Your task to perform on an android device: Empty the shopping cart on amazon.com. Add jbl flip 4 to the cart on amazon.com, then select checkout. Image 0: 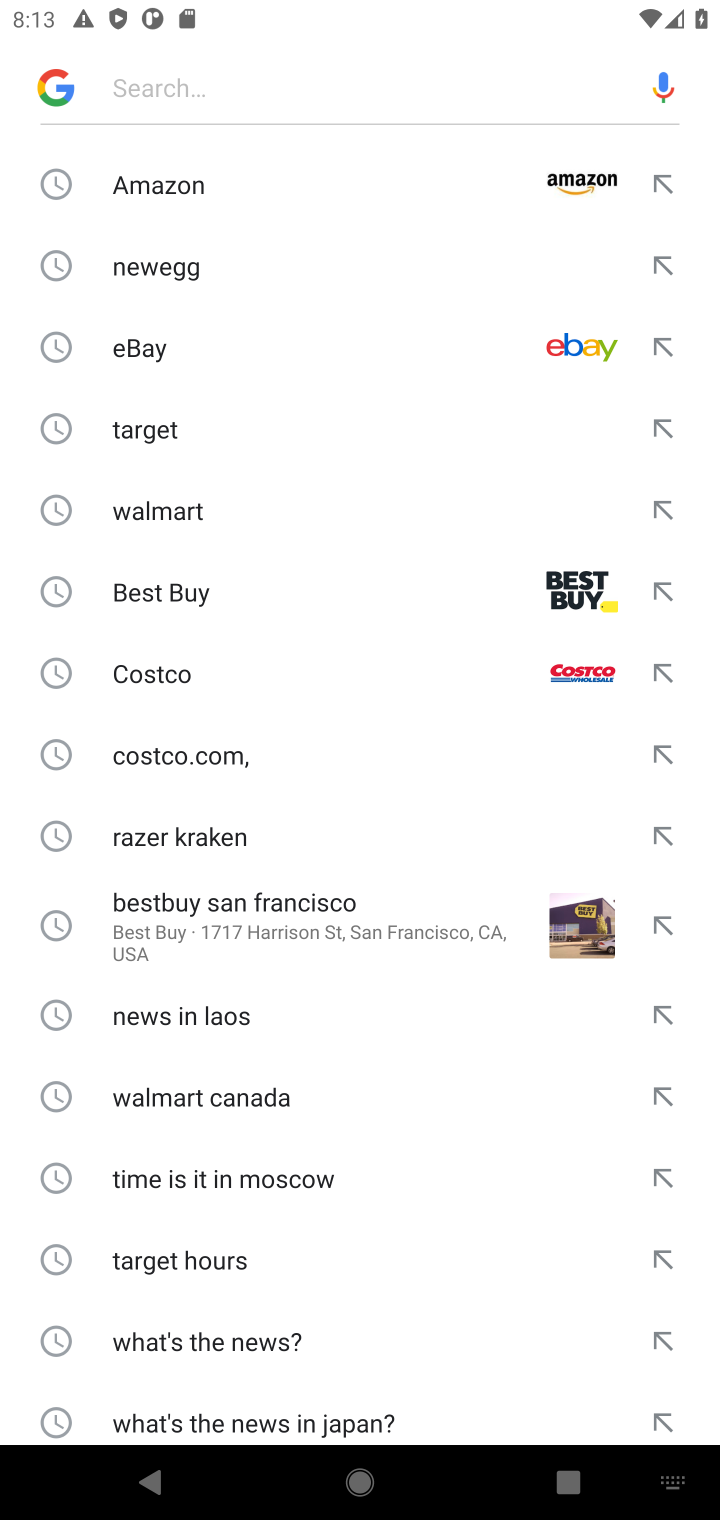
Step 0: press home button
Your task to perform on an android device: Empty the shopping cart on amazon.com. Add jbl flip 4 to the cart on amazon.com, then select checkout. Image 1: 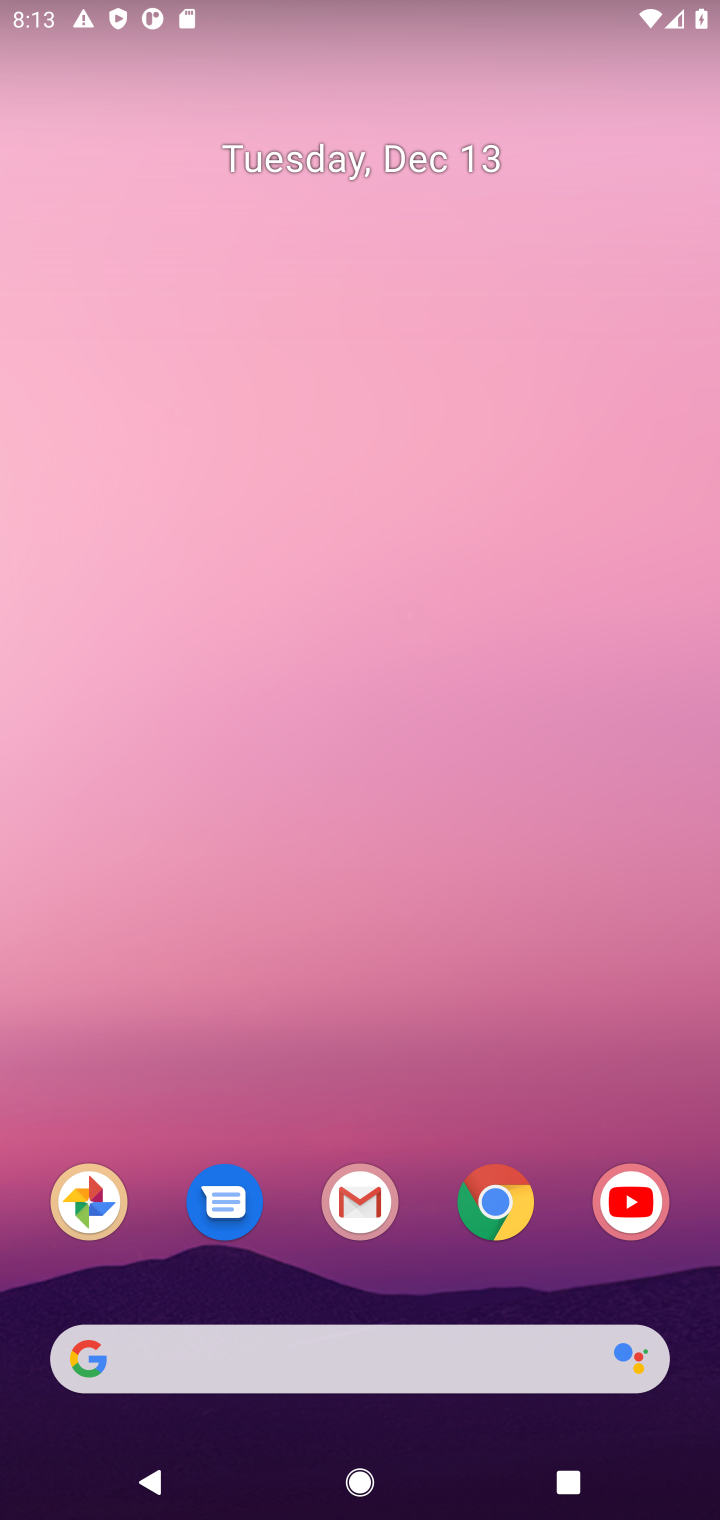
Step 1: click (523, 1202)
Your task to perform on an android device: Empty the shopping cart on amazon.com. Add jbl flip 4 to the cart on amazon.com, then select checkout. Image 2: 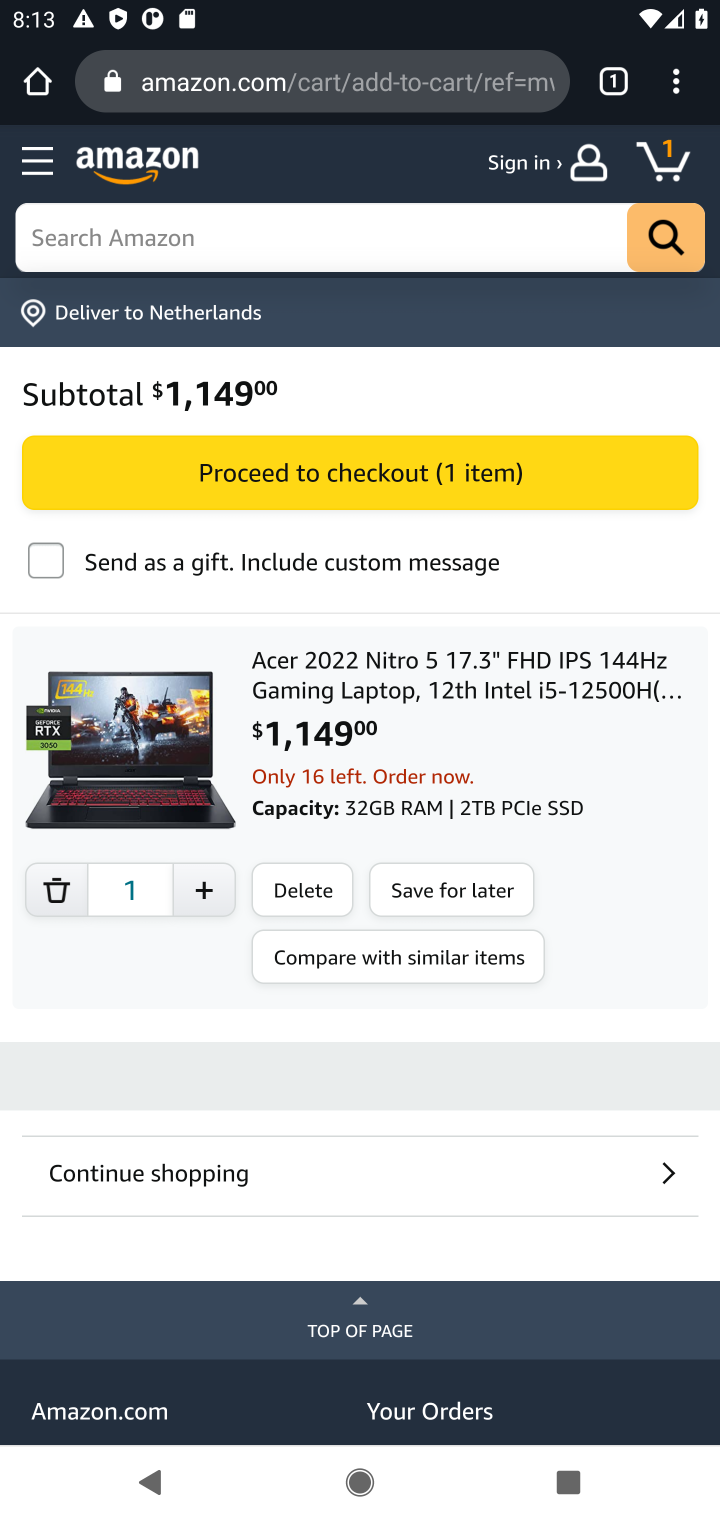
Step 2: click (666, 170)
Your task to perform on an android device: Empty the shopping cart on amazon.com. Add jbl flip 4 to the cart on amazon.com, then select checkout. Image 3: 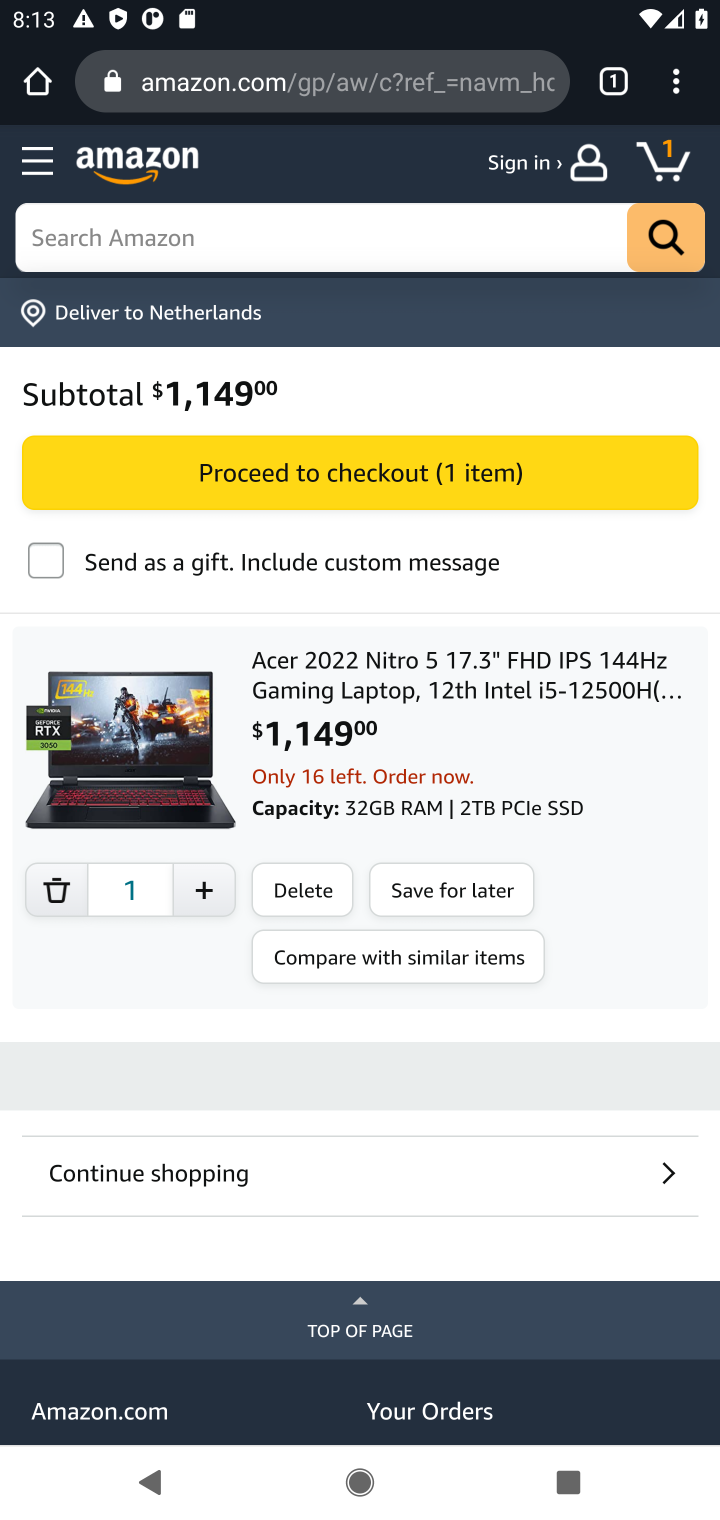
Step 3: click (305, 899)
Your task to perform on an android device: Empty the shopping cart on amazon.com. Add jbl flip 4 to the cart on amazon.com, then select checkout. Image 4: 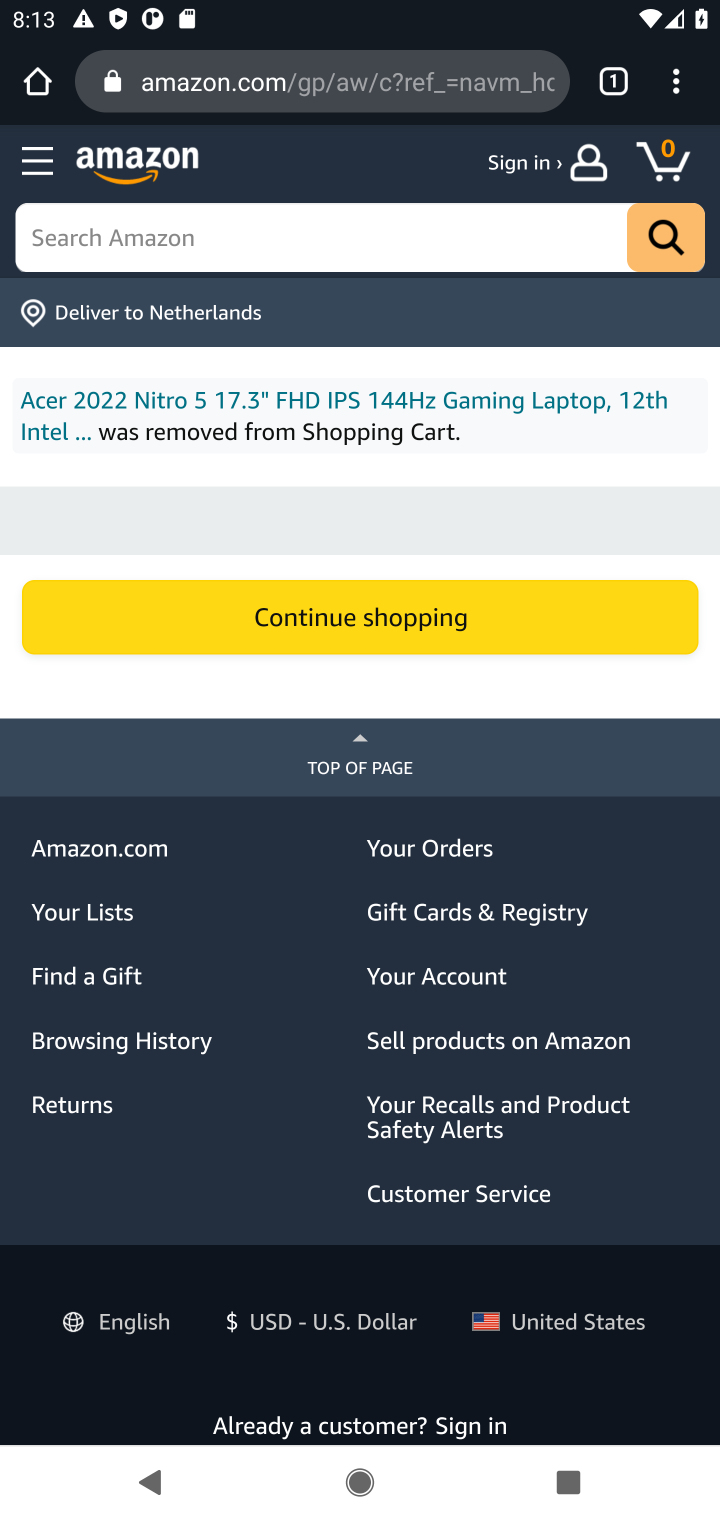
Step 4: type "jbl flip4"
Your task to perform on an android device: Empty the shopping cart on amazon.com. Add jbl flip 4 to the cart on amazon.com, then select checkout. Image 5: 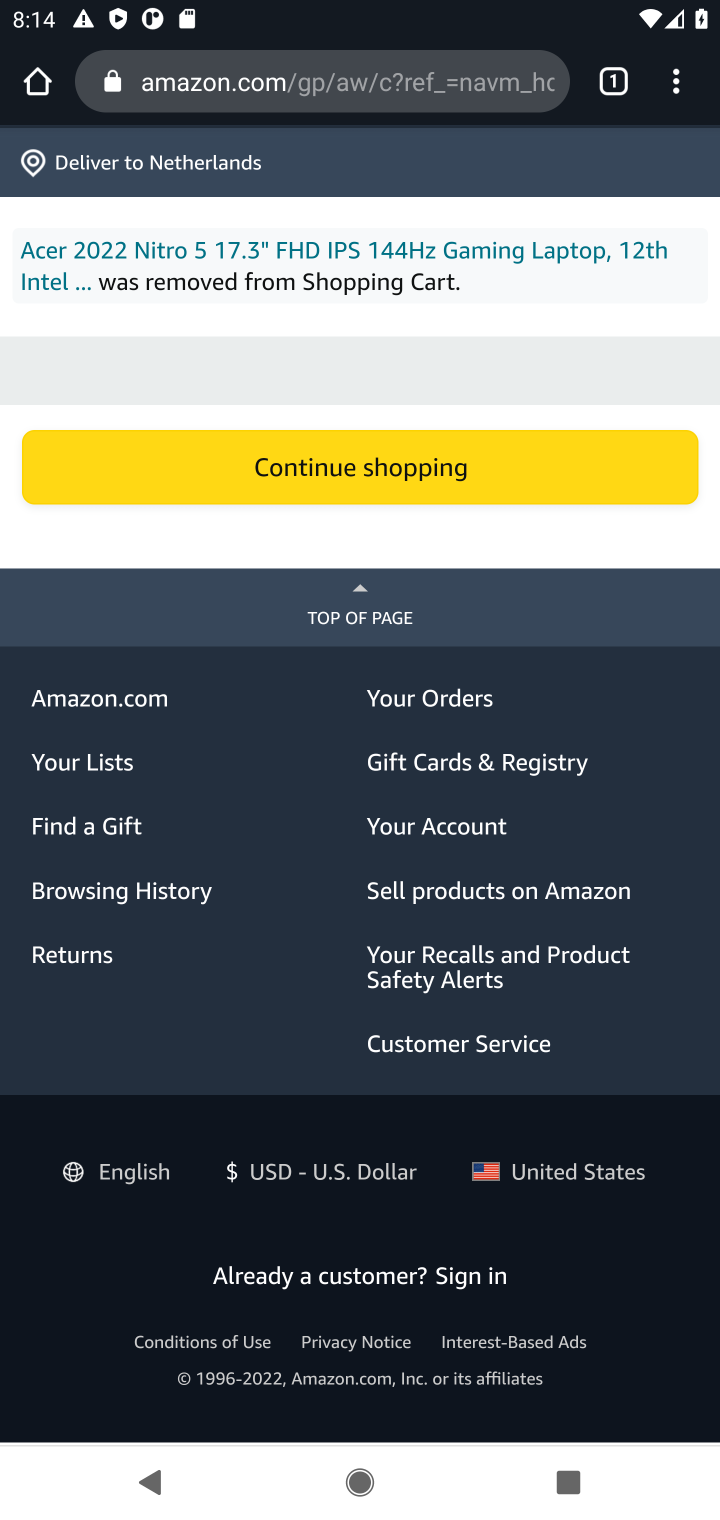
Step 5: drag from (302, 1021) to (468, 484)
Your task to perform on an android device: Empty the shopping cart on amazon.com. Add jbl flip 4 to the cart on amazon.com, then select checkout. Image 6: 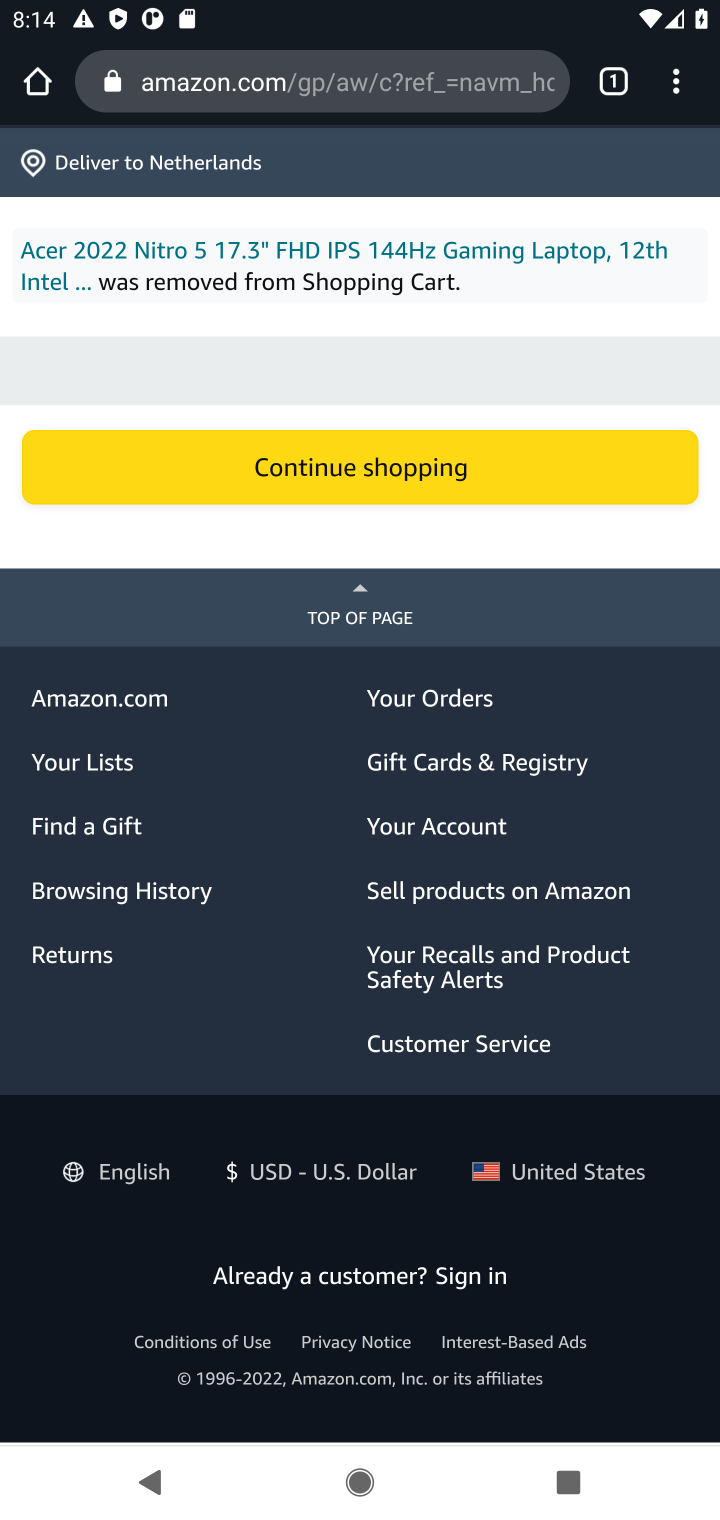
Step 6: drag from (656, 306) to (561, 1083)
Your task to perform on an android device: Empty the shopping cart on amazon.com. Add jbl flip 4 to the cart on amazon.com, then select checkout. Image 7: 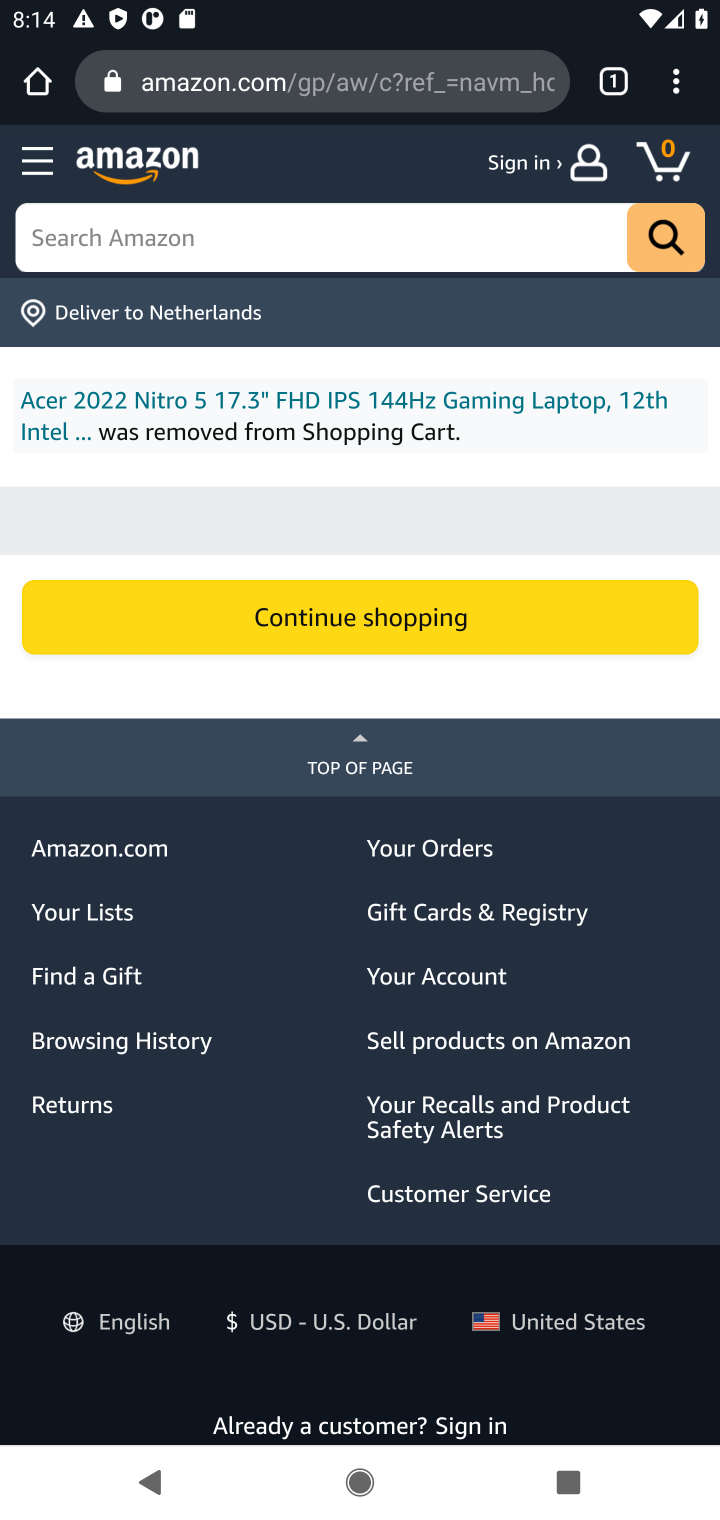
Step 7: click (467, 250)
Your task to perform on an android device: Empty the shopping cart on amazon.com. Add jbl flip 4 to the cart on amazon.com, then select checkout. Image 8: 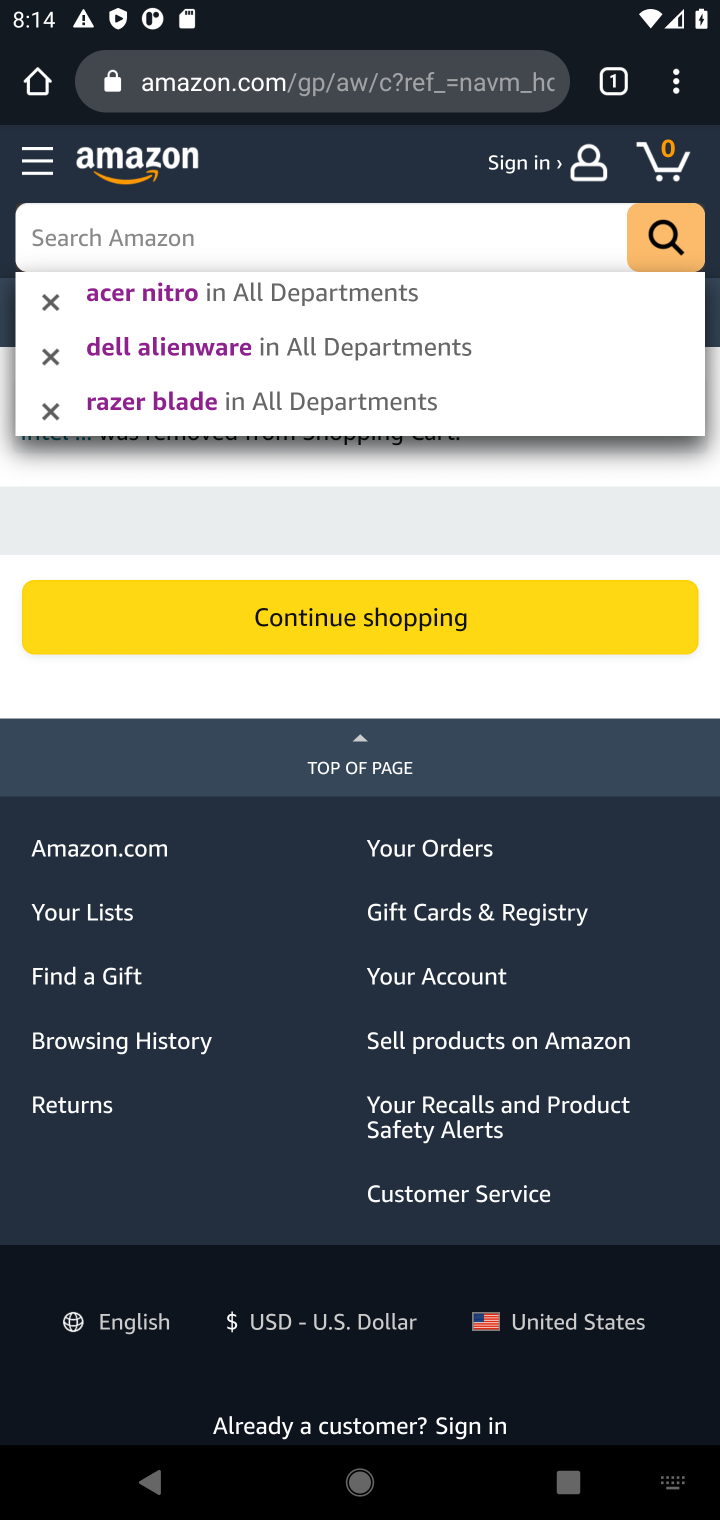
Step 8: type "jbl flip 4"
Your task to perform on an android device: Empty the shopping cart on amazon.com. Add jbl flip 4 to the cart on amazon.com, then select checkout. Image 9: 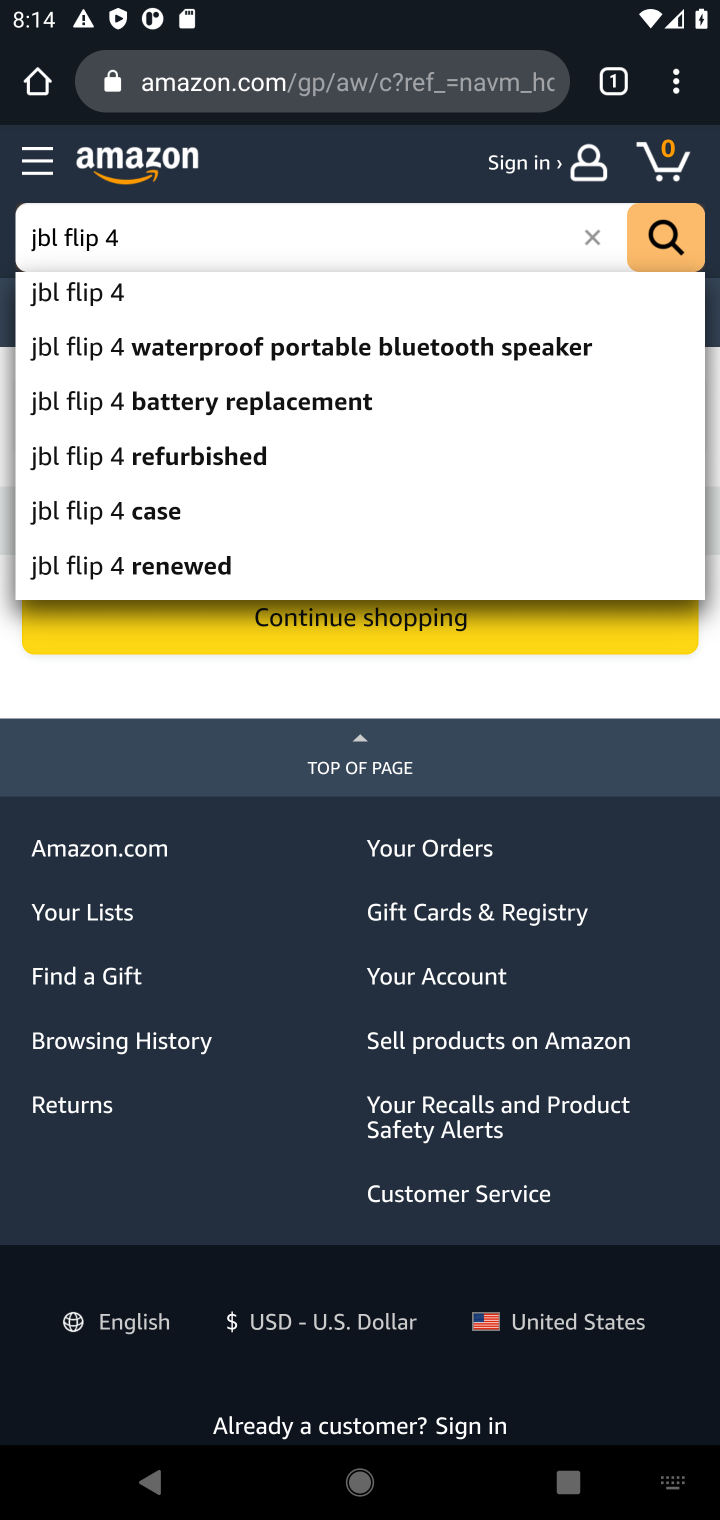
Step 9: click (687, 232)
Your task to perform on an android device: Empty the shopping cart on amazon.com. Add jbl flip 4 to the cart on amazon.com, then select checkout. Image 10: 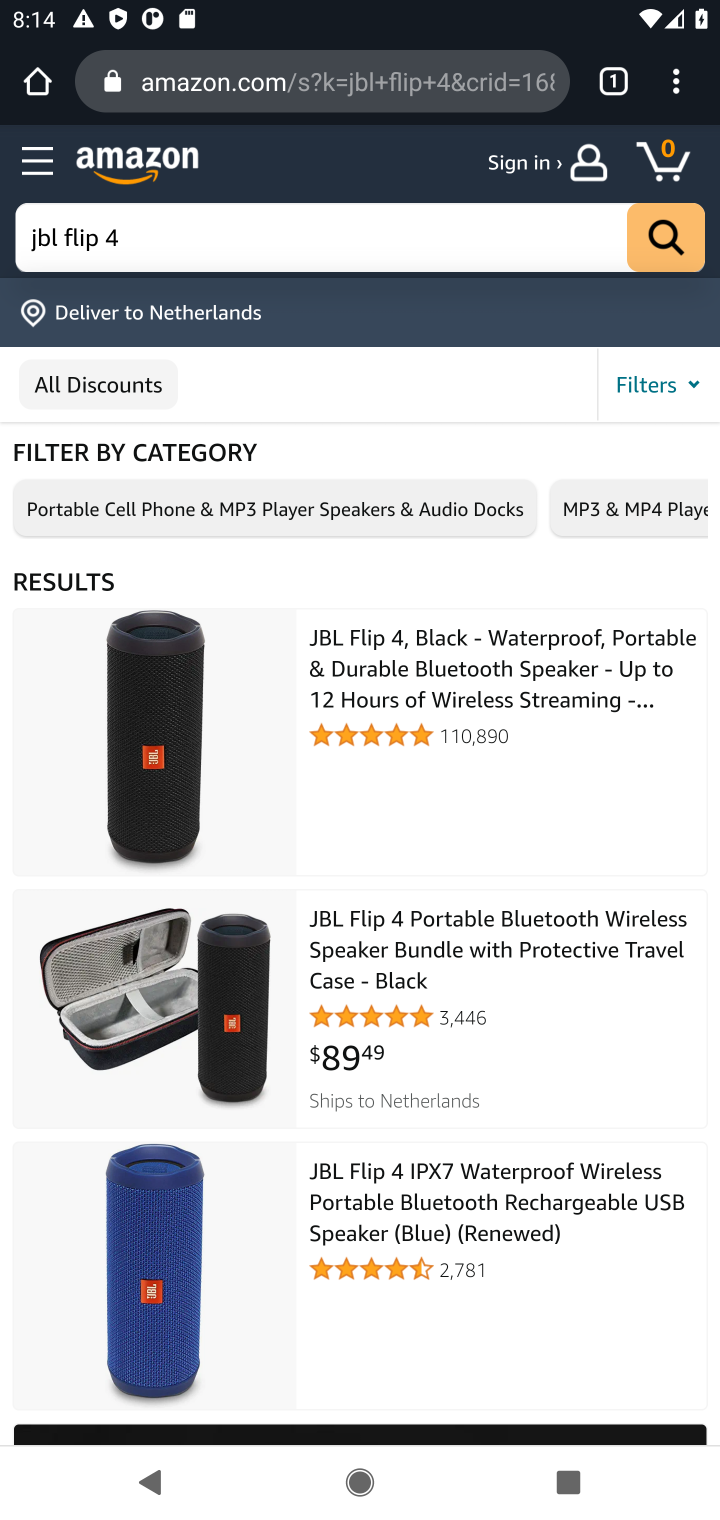
Step 10: click (342, 682)
Your task to perform on an android device: Empty the shopping cart on amazon.com. Add jbl flip 4 to the cart on amazon.com, then select checkout. Image 11: 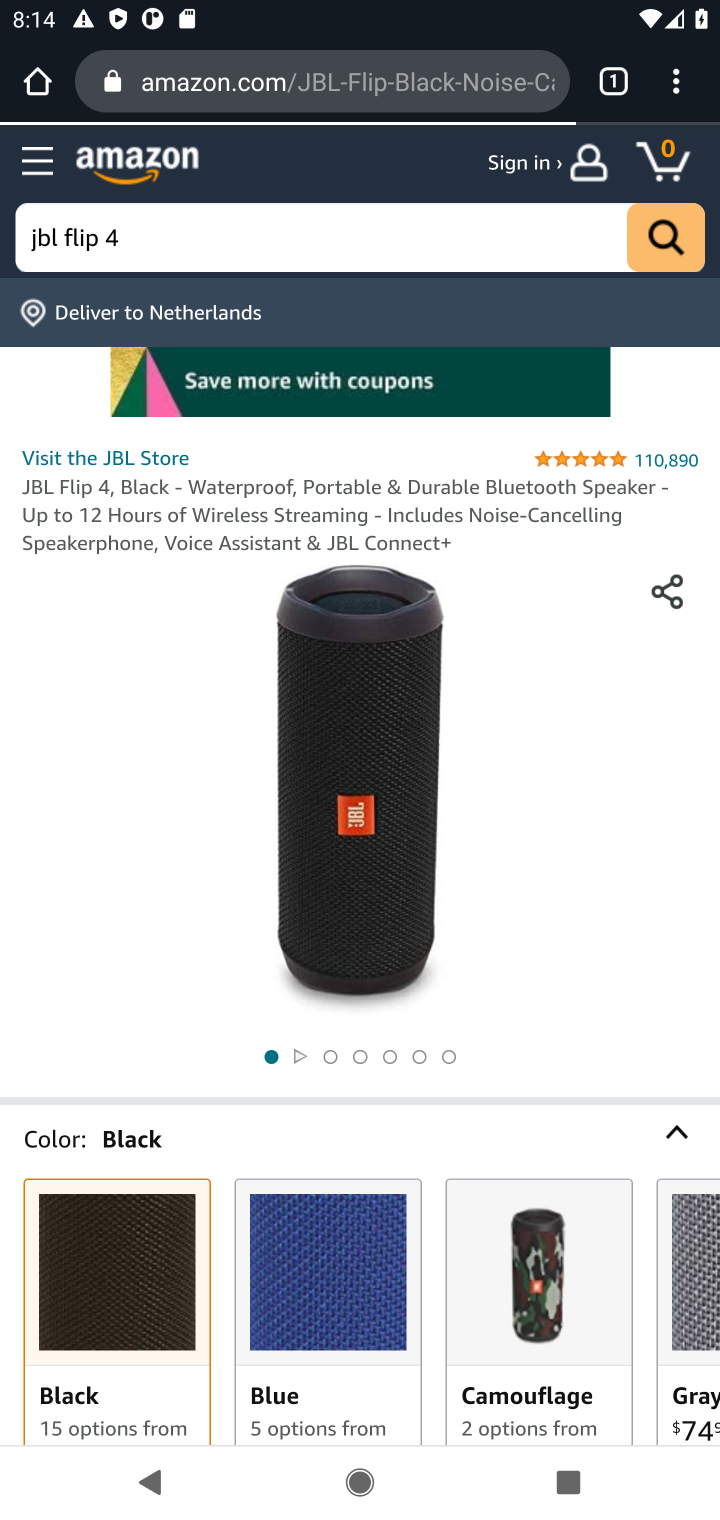
Step 11: drag from (590, 670) to (596, 454)
Your task to perform on an android device: Empty the shopping cart on amazon.com. Add jbl flip 4 to the cart on amazon.com, then select checkout. Image 12: 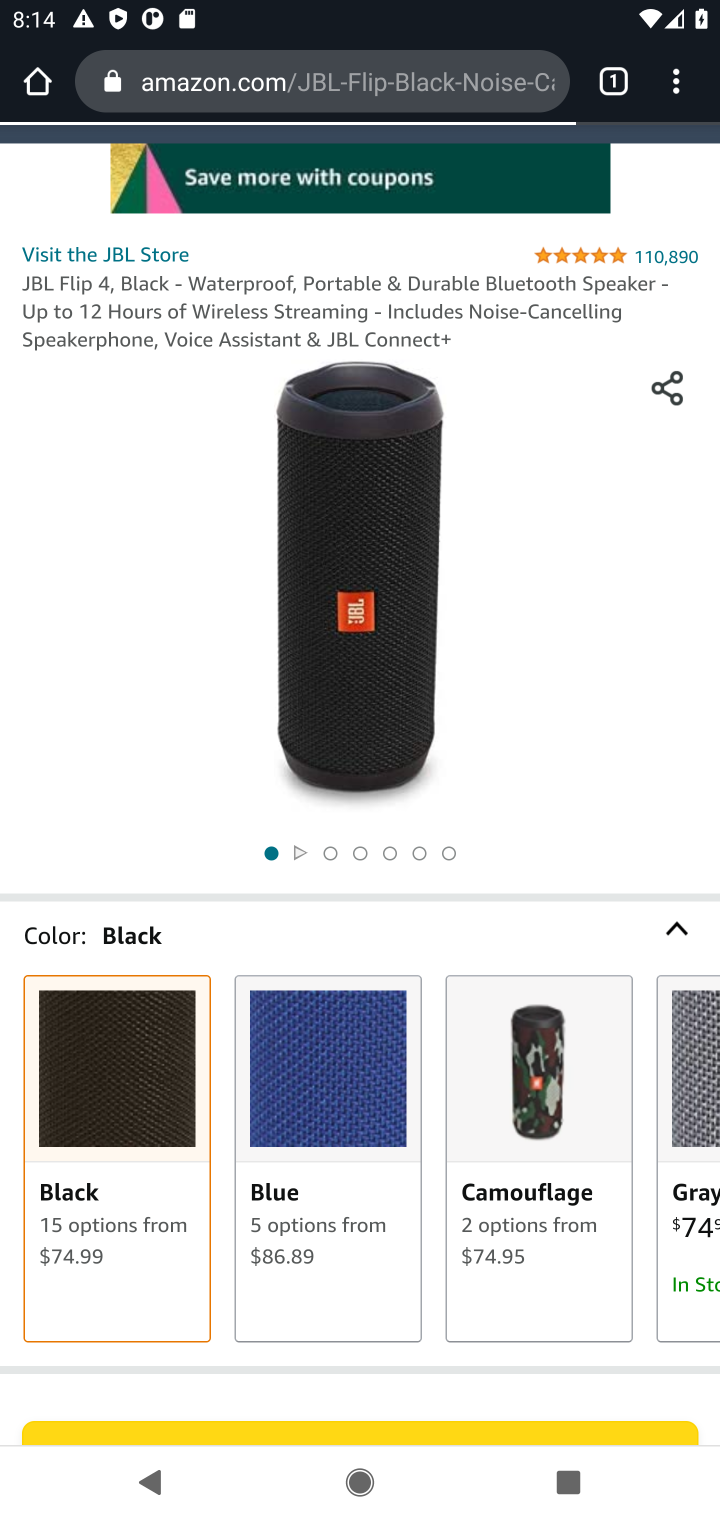
Step 12: drag from (595, 830) to (668, 351)
Your task to perform on an android device: Empty the shopping cart on amazon.com. Add jbl flip 4 to the cart on amazon.com, then select checkout. Image 13: 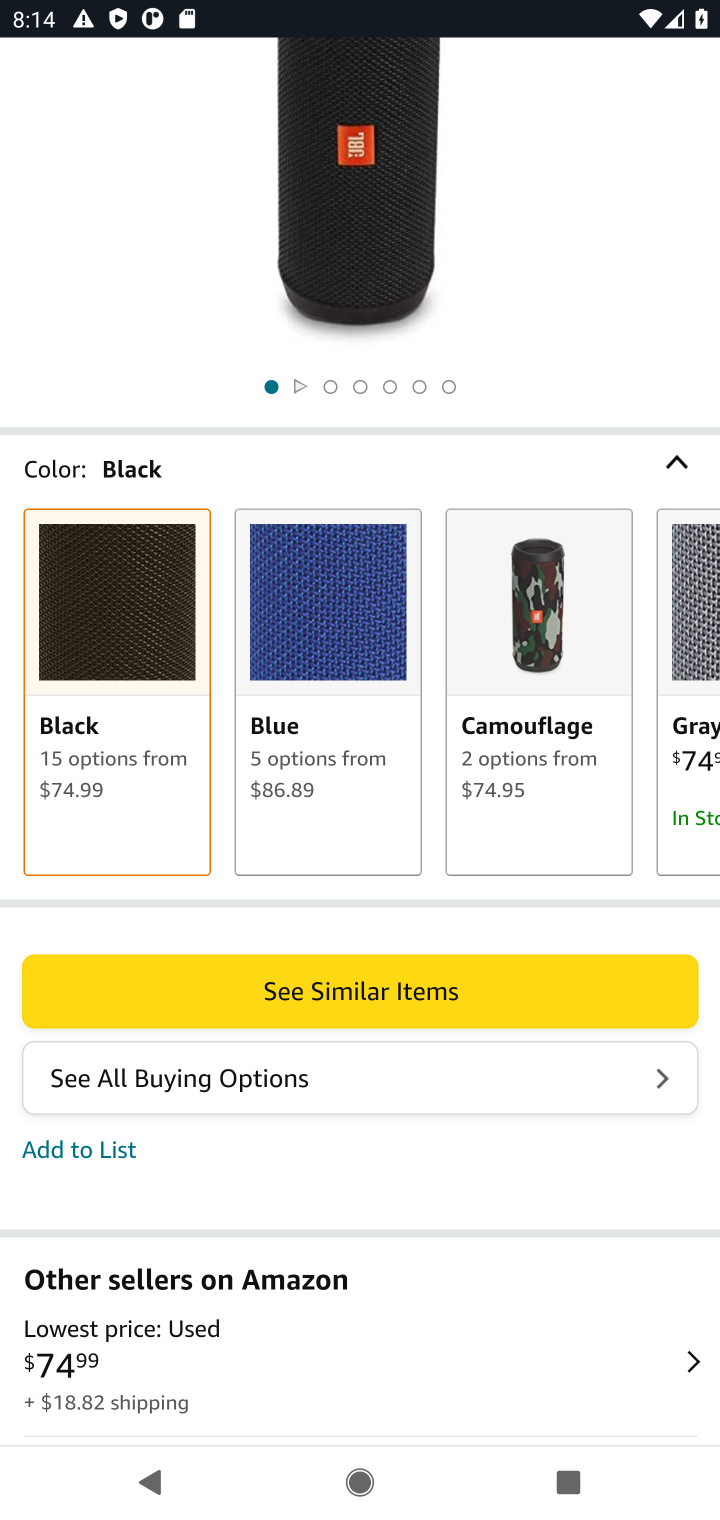
Step 13: drag from (497, 1191) to (615, 730)
Your task to perform on an android device: Empty the shopping cart on amazon.com. Add jbl flip 4 to the cart on amazon.com, then select checkout. Image 14: 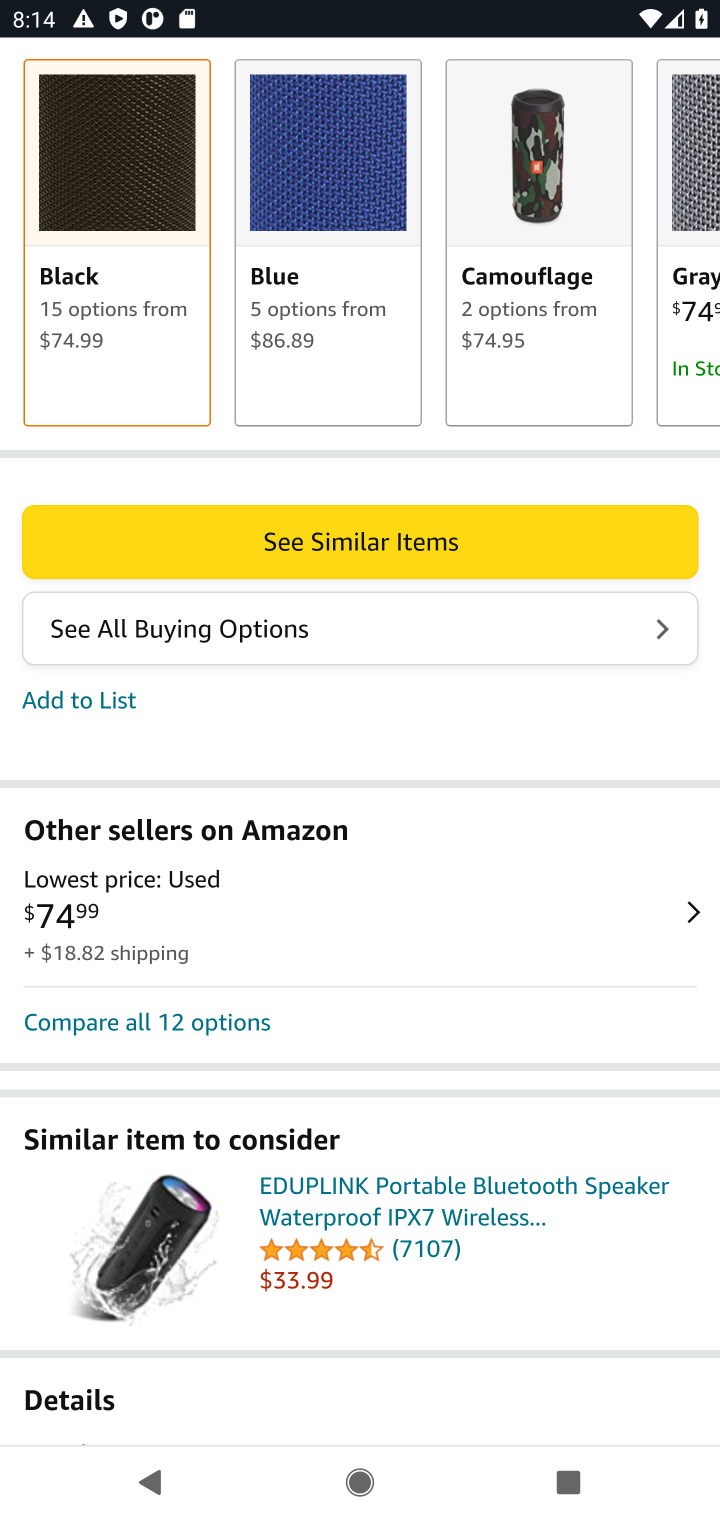
Step 14: drag from (572, 1281) to (552, 691)
Your task to perform on an android device: Empty the shopping cart on amazon.com. Add jbl flip 4 to the cart on amazon.com, then select checkout. Image 15: 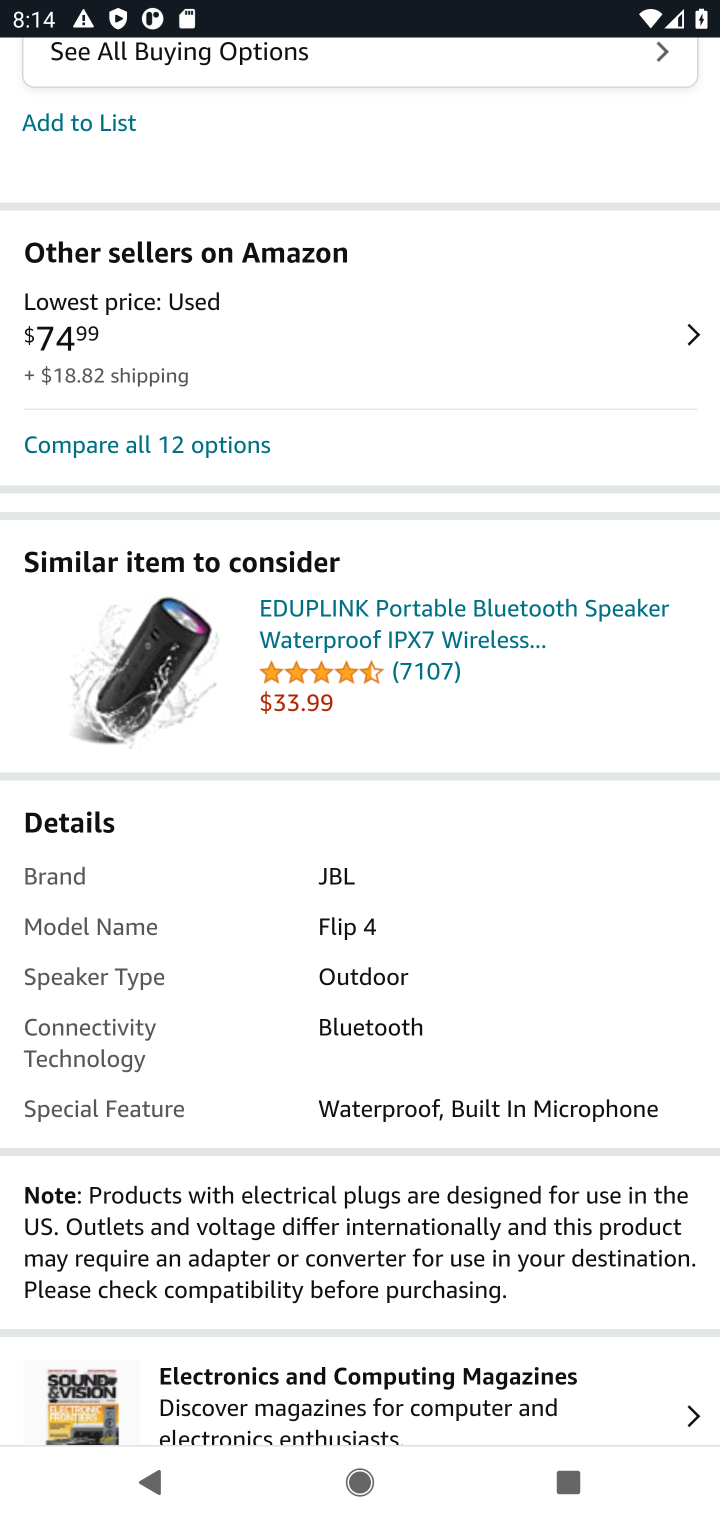
Step 15: drag from (488, 1226) to (533, 652)
Your task to perform on an android device: Empty the shopping cart on amazon.com. Add jbl flip 4 to the cart on amazon.com, then select checkout. Image 16: 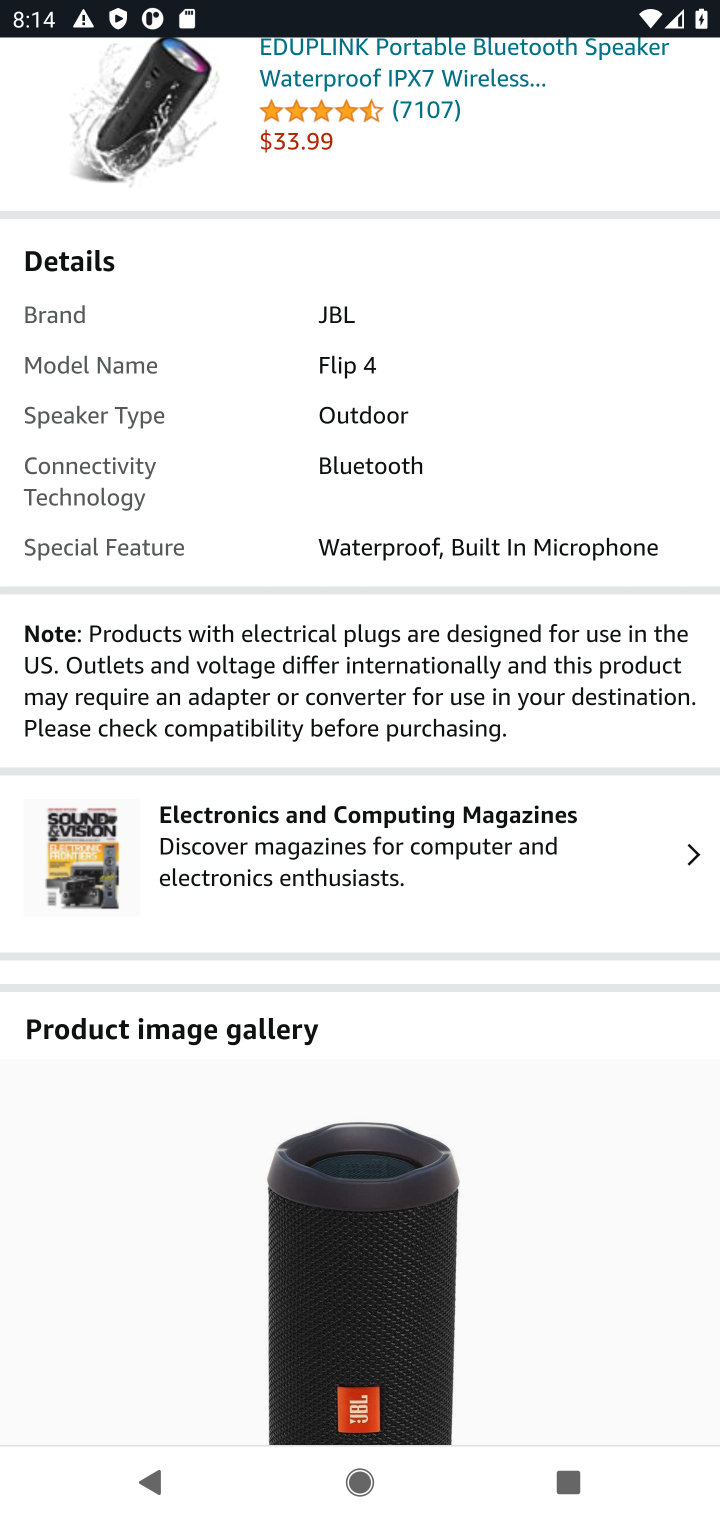
Step 16: drag from (544, 1220) to (564, 416)
Your task to perform on an android device: Empty the shopping cart on amazon.com. Add jbl flip 4 to the cart on amazon.com, then select checkout. Image 17: 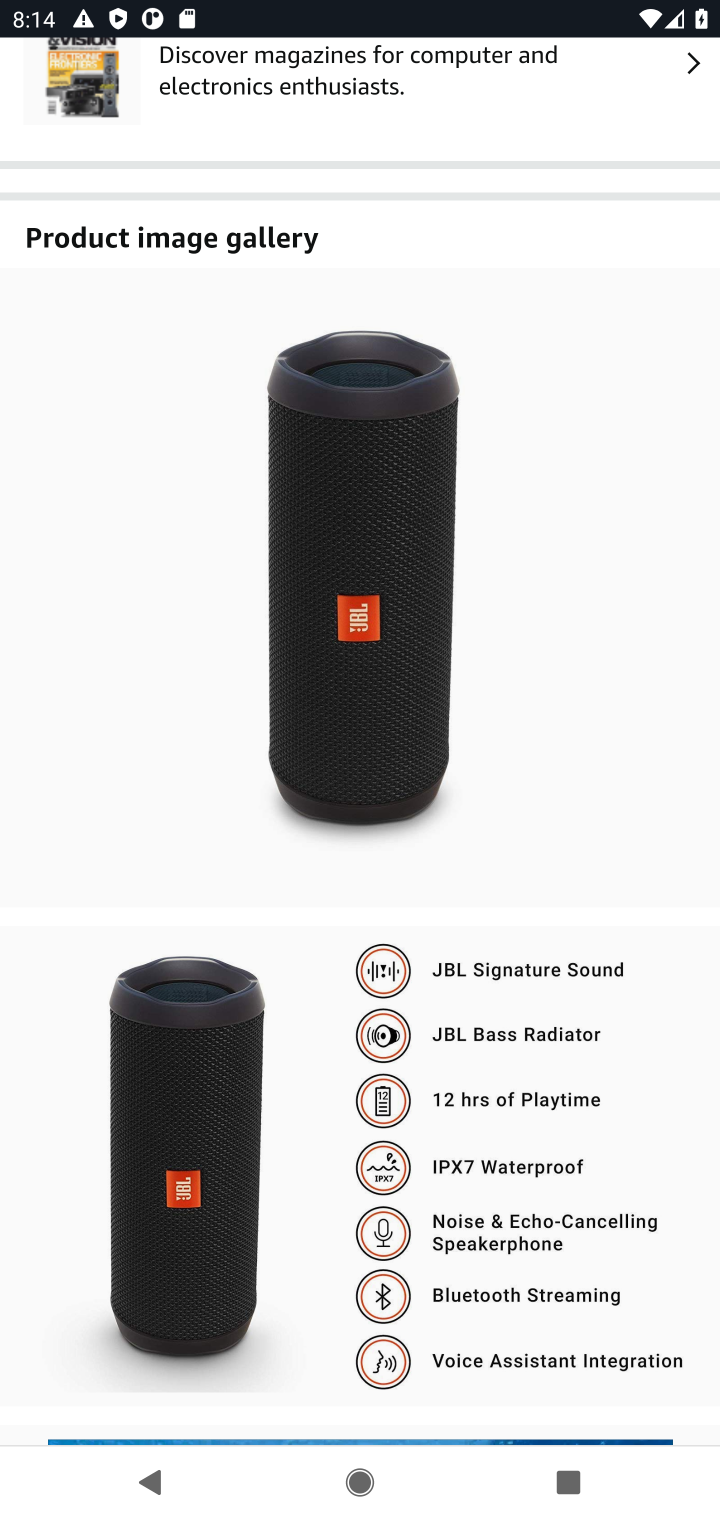
Step 17: drag from (506, 1197) to (657, 357)
Your task to perform on an android device: Empty the shopping cart on amazon.com. Add jbl flip 4 to the cart on amazon.com, then select checkout. Image 18: 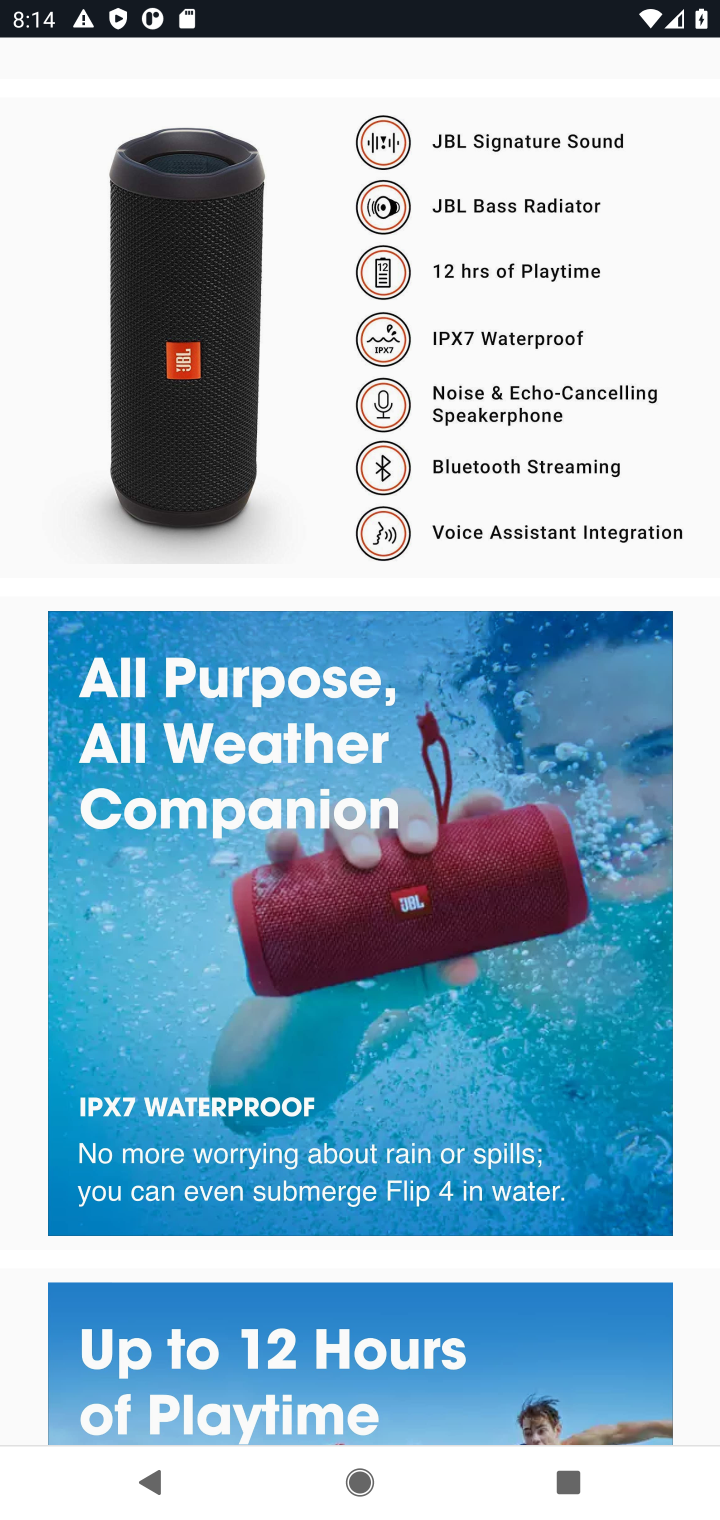
Step 18: drag from (474, 1251) to (567, 253)
Your task to perform on an android device: Empty the shopping cart on amazon.com. Add jbl flip 4 to the cart on amazon.com, then select checkout. Image 19: 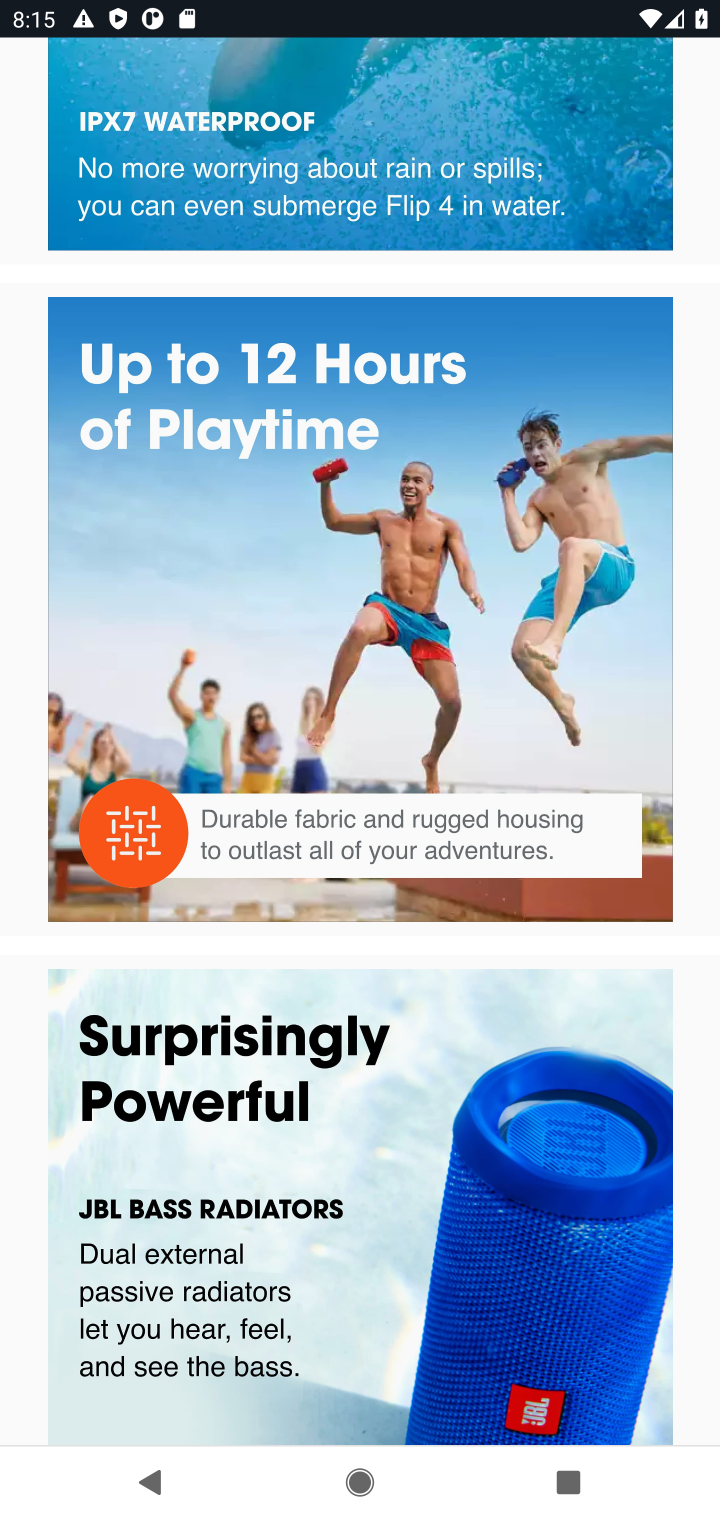
Step 19: drag from (576, 624) to (422, 1445)
Your task to perform on an android device: Empty the shopping cart on amazon.com. Add jbl flip 4 to the cart on amazon.com, then select checkout. Image 20: 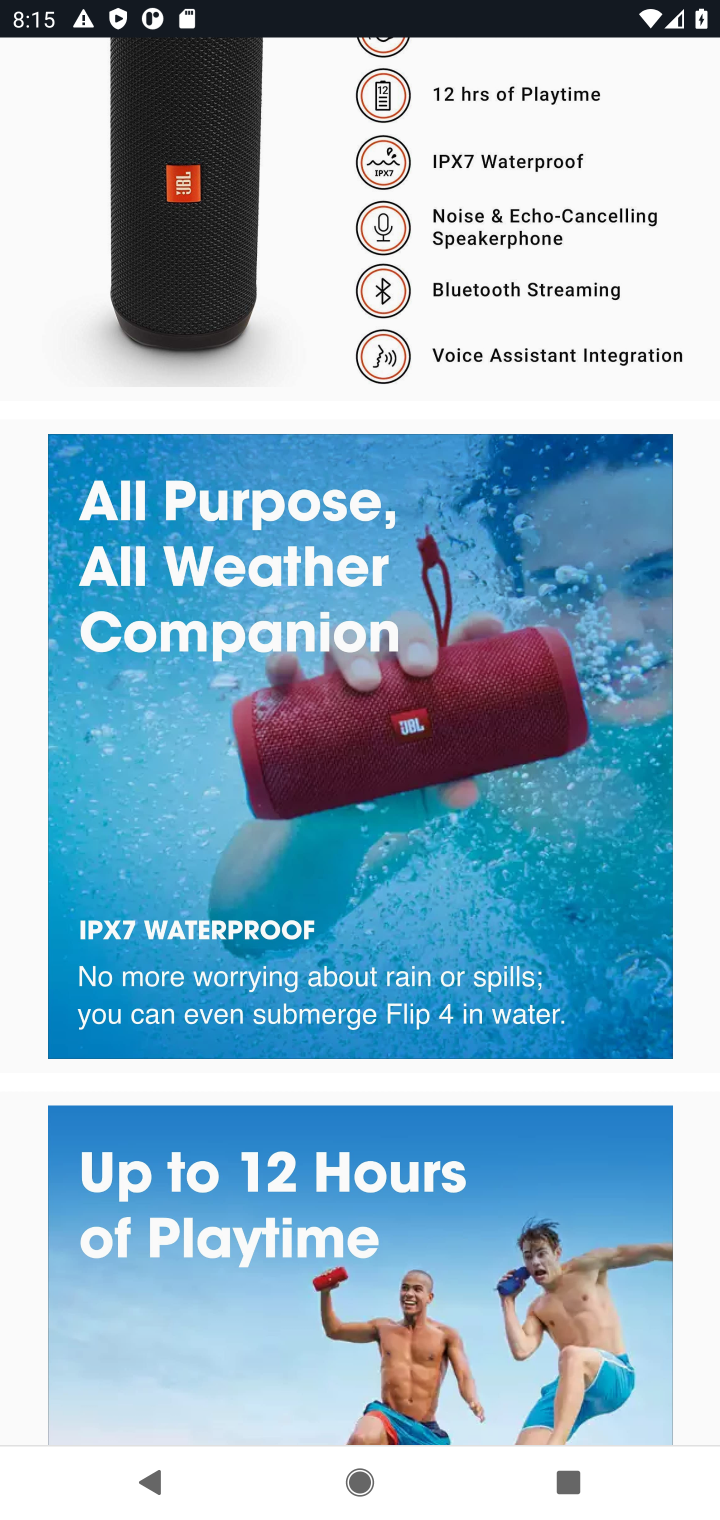
Step 20: drag from (500, 512) to (383, 1434)
Your task to perform on an android device: Empty the shopping cart on amazon.com. Add jbl flip 4 to the cart on amazon.com, then select checkout. Image 21: 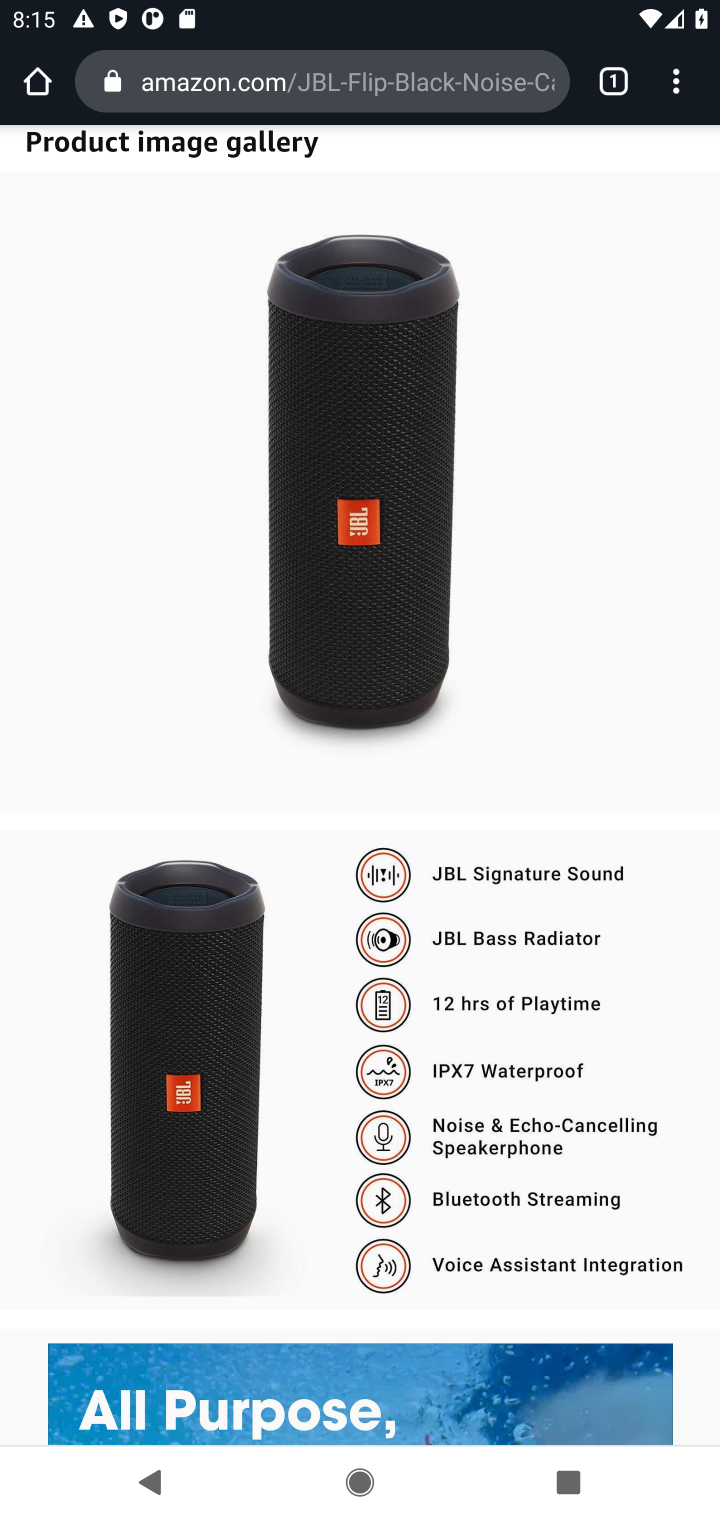
Step 21: drag from (593, 216) to (471, 1491)
Your task to perform on an android device: Empty the shopping cart on amazon.com. Add jbl flip 4 to the cart on amazon.com, then select checkout. Image 22: 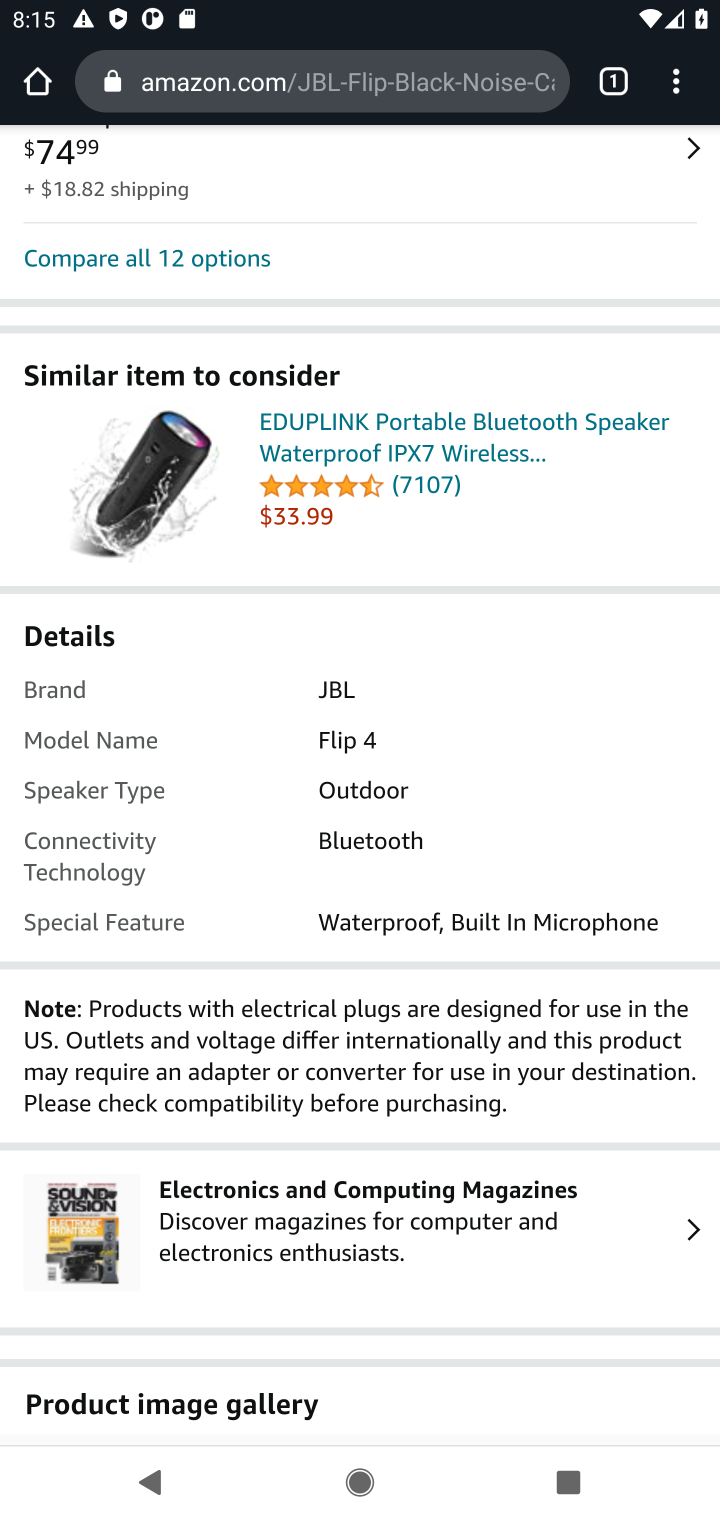
Step 22: drag from (620, 626) to (506, 1301)
Your task to perform on an android device: Empty the shopping cart on amazon.com. Add jbl flip 4 to the cart on amazon.com, then select checkout. Image 23: 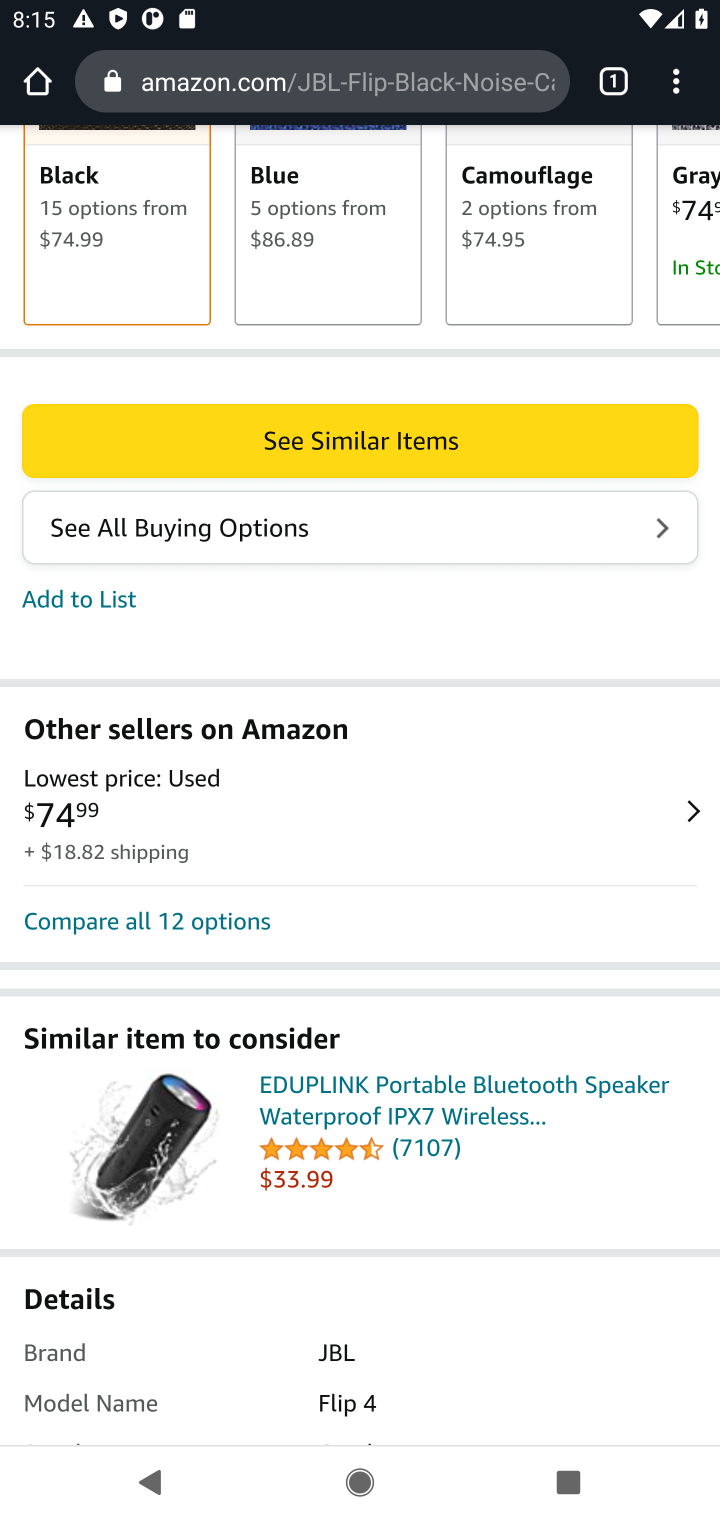
Step 23: drag from (565, 631) to (527, 1231)
Your task to perform on an android device: Empty the shopping cart on amazon.com. Add jbl flip 4 to the cart on amazon.com, then select checkout. Image 24: 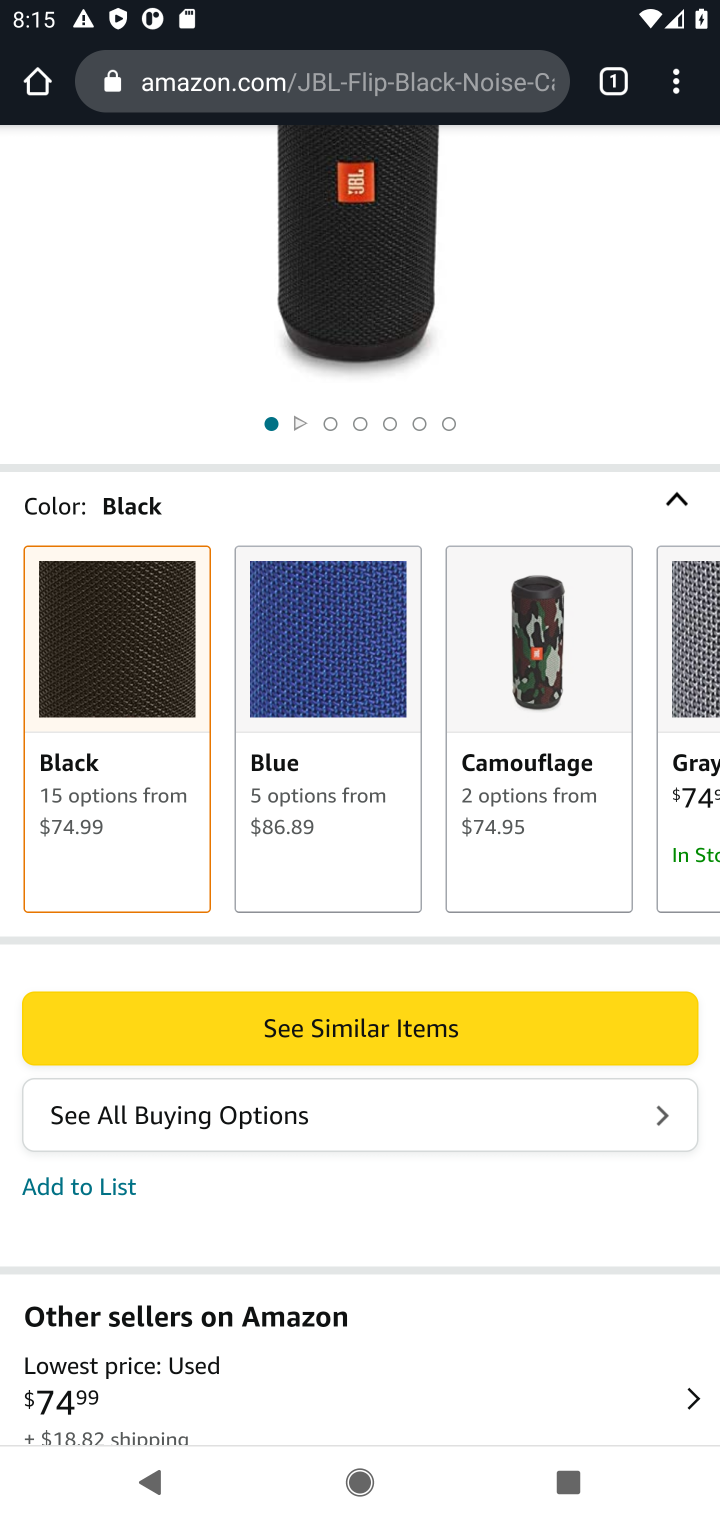
Step 24: drag from (568, 348) to (539, 1080)
Your task to perform on an android device: Empty the shopping cart on amazon.com. Add jbl flip 4 to the cart on amazon.com, then select checkout. Image 25: 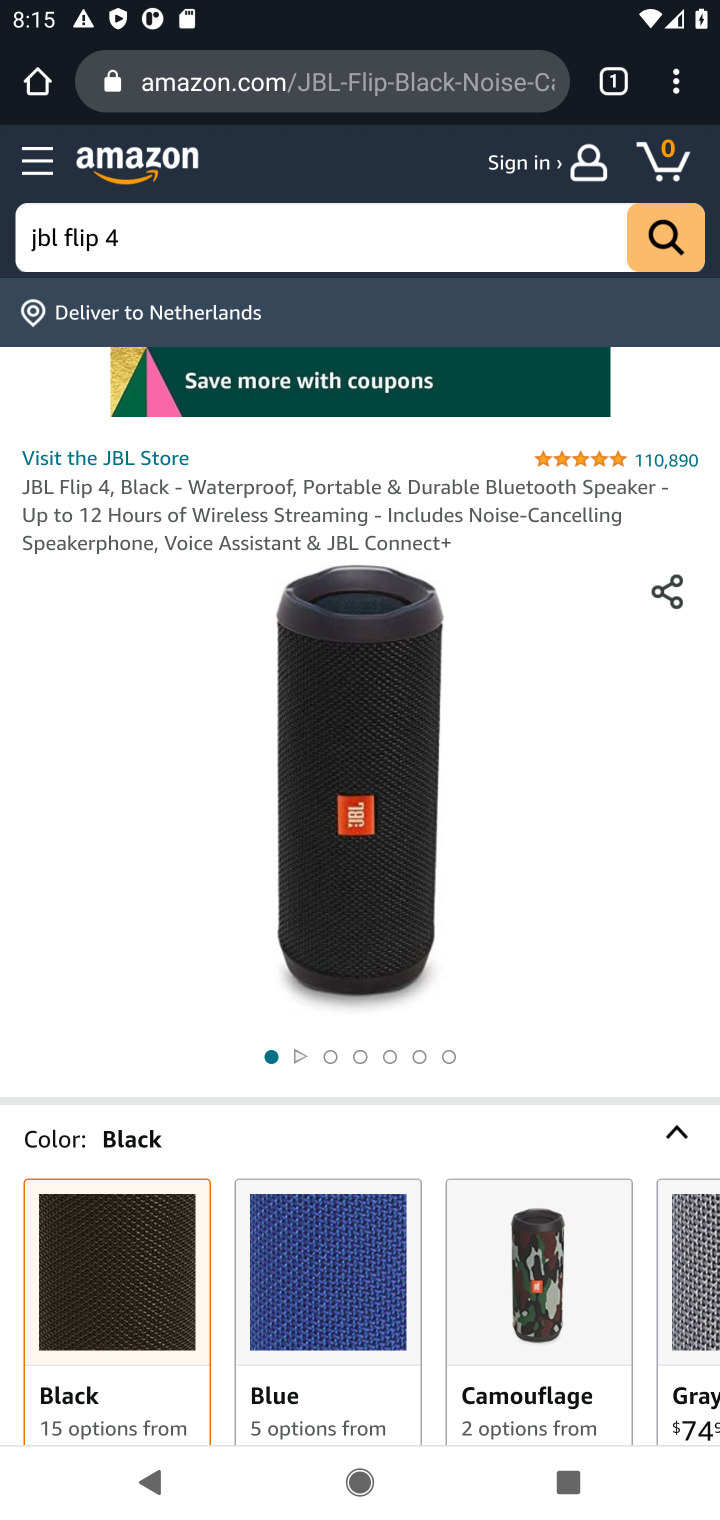
Step 25: press back button
Your task to perform on an android device: Empty the shopping cart on amazon.com. Add jbl flip 4 to the cart on amazon.com, then select checkout. Image 26: 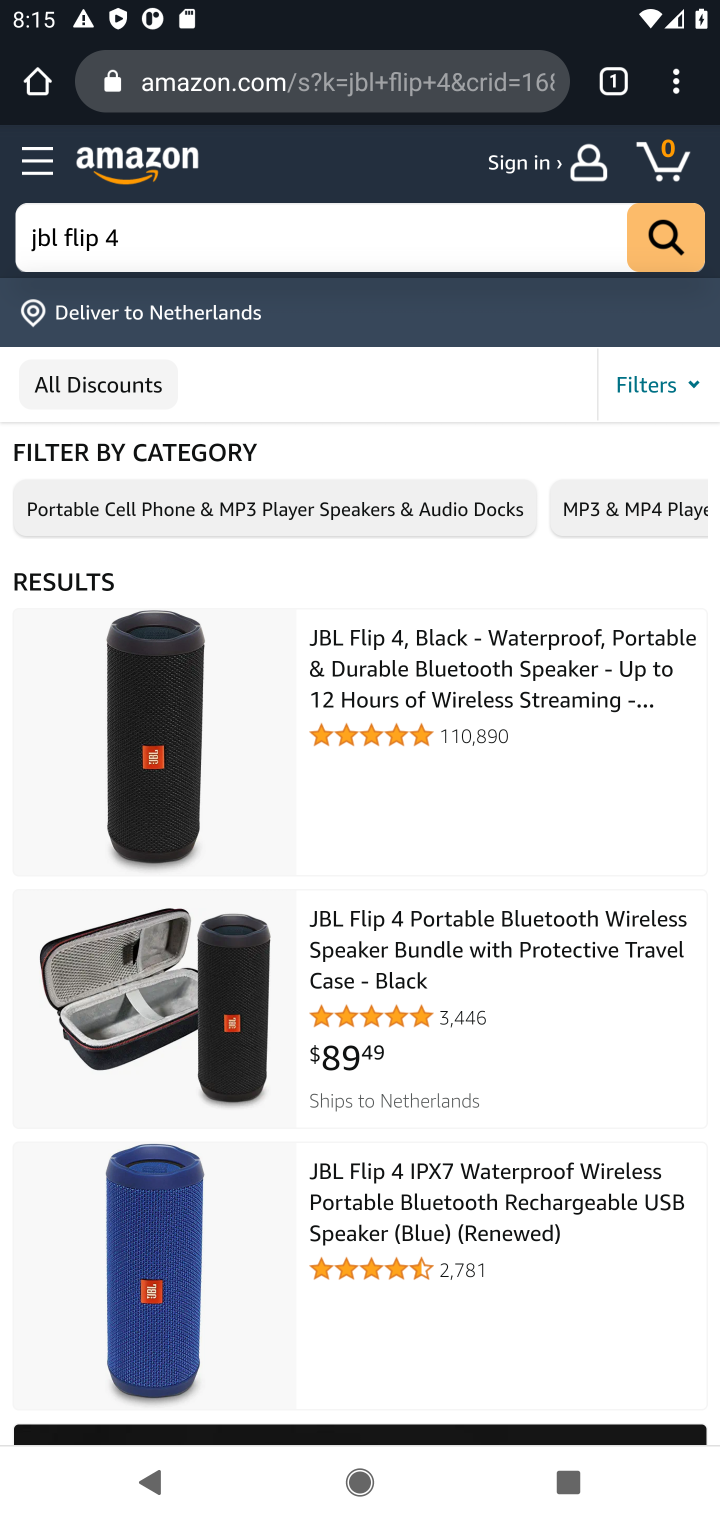
Step 26: click (415, 970)
Your task to perform on an android device: Empty the shopping cart on amazon.com. Add jbl flip 4 to the cart on amazon.com, then select checkout. Image 27: 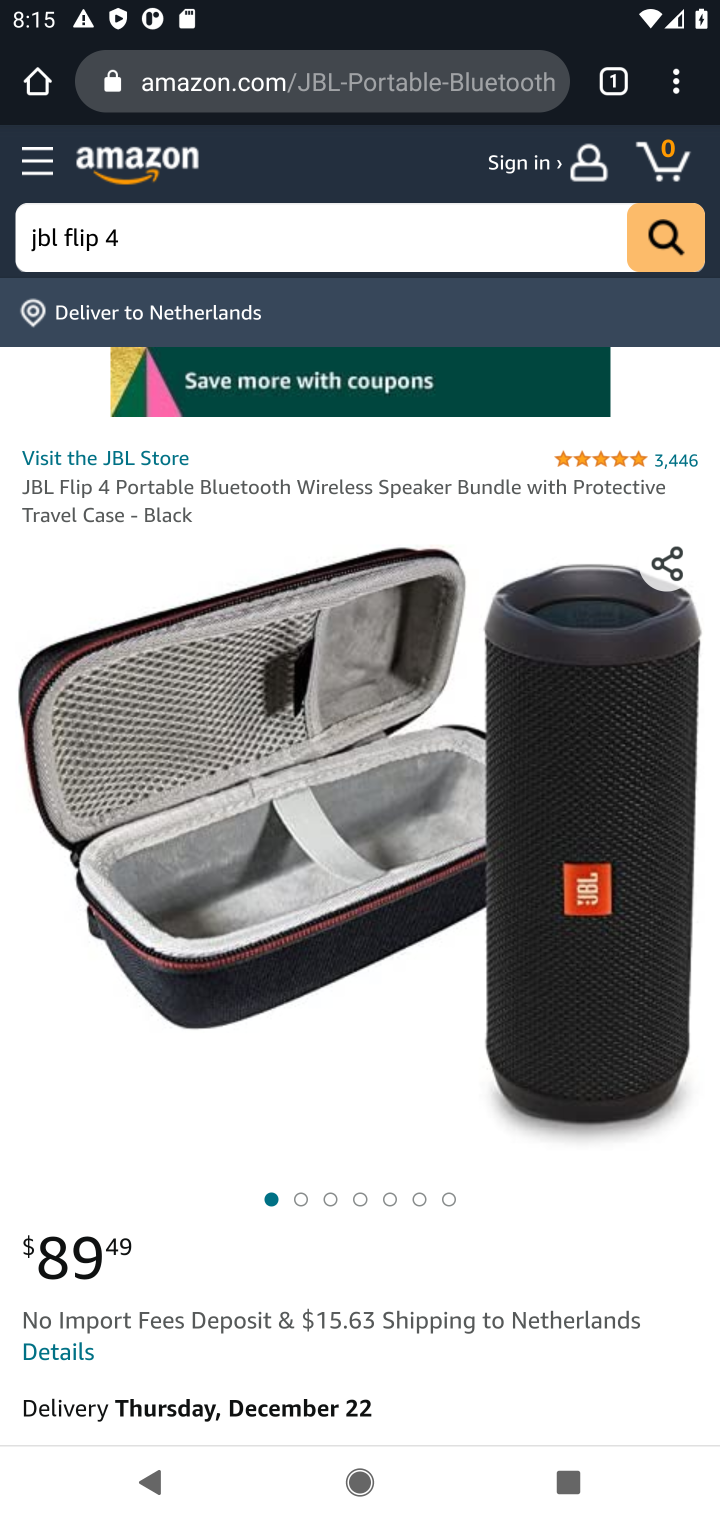
Step 27: drag from (571, 1029) to (579, 749)
Your task to perform on an android device: Empty the shopping cart on amazon.com. Add jbl flip 4 to the cart on amazon.com, then select checkout. Image 28: 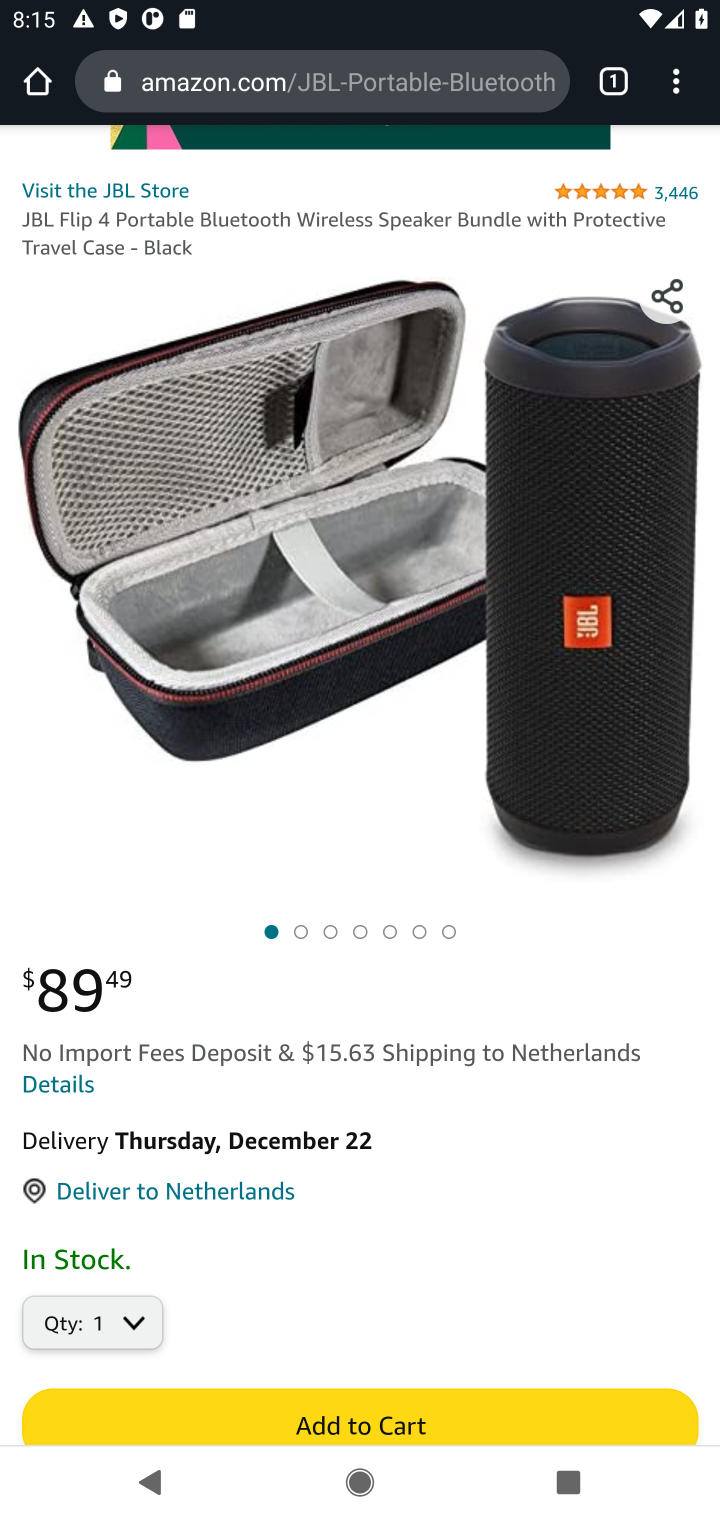
Step 28: drag from (544, 1064) to (550, 839)
Your task to perform on an android device: Empty the shopping cart on amazon.com. Add jbl flip 4 to the cart on amazon.com, then select checkout. Image 29: 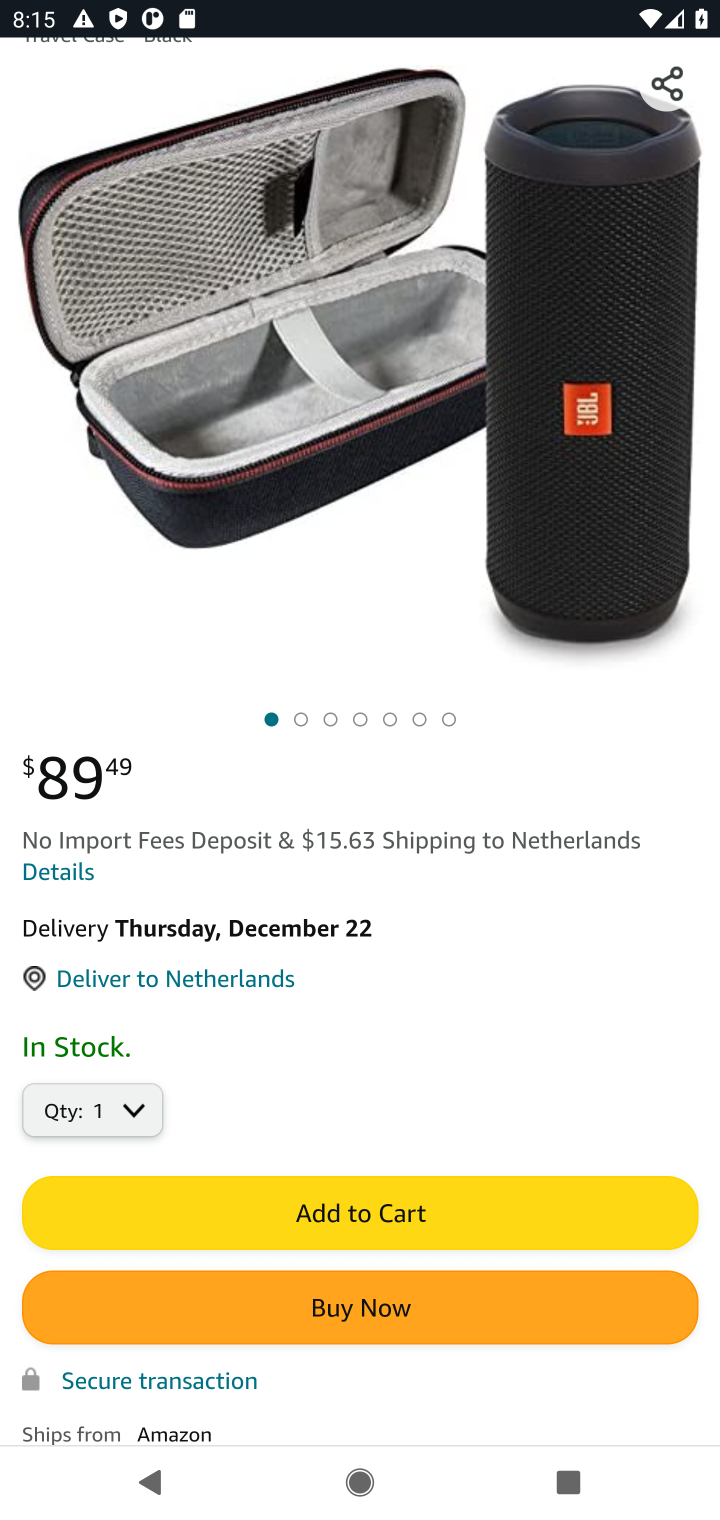
Step 29: click (499, 1195)
Your task to perform on an android device: Empty the shopping cart on amazon.com. Add jbl flip 4 to the cart on amazon.com, then select checkout. Image 30: 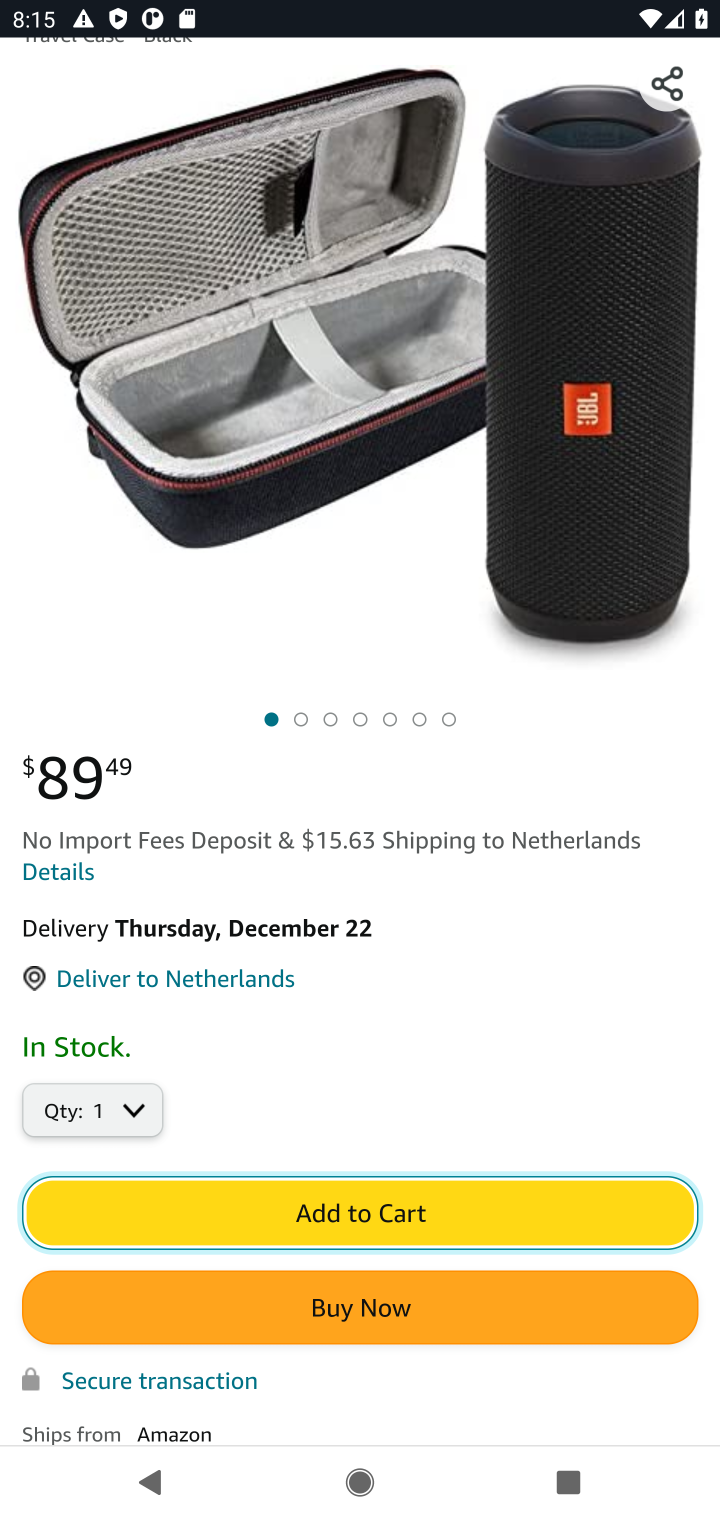
Step 30: click (577, 1217)
Your task to perform on an android device: Empty the shopping cart on amazon.com. Add jbl flip 4 to the cart on amazon.com, then select checkout. Image 31: 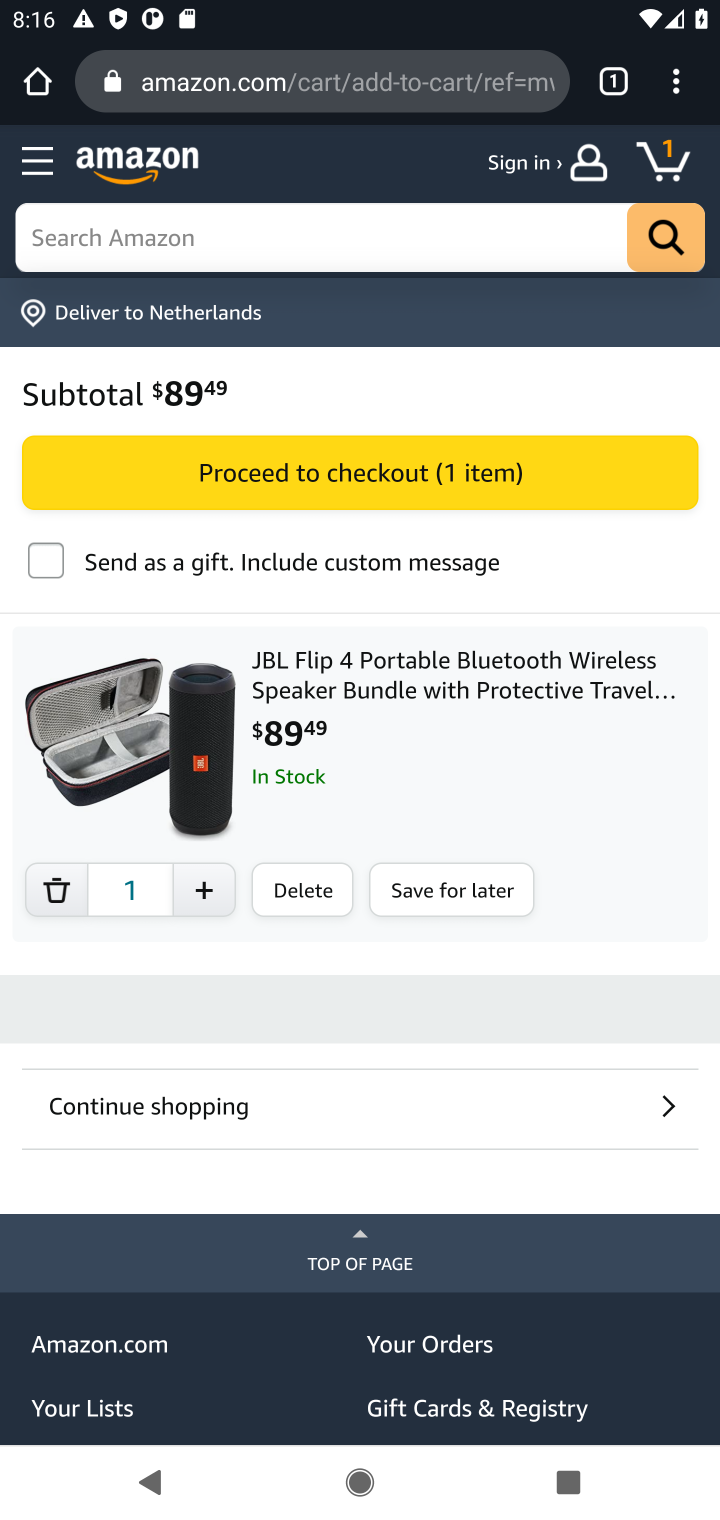
Step 31: click (361, 475)
Your task to perform on an android device: Empty the shopping cart on amazon.com. Add jbl flip 4 to the cart on amazon.com, then select checkout. Image 32: 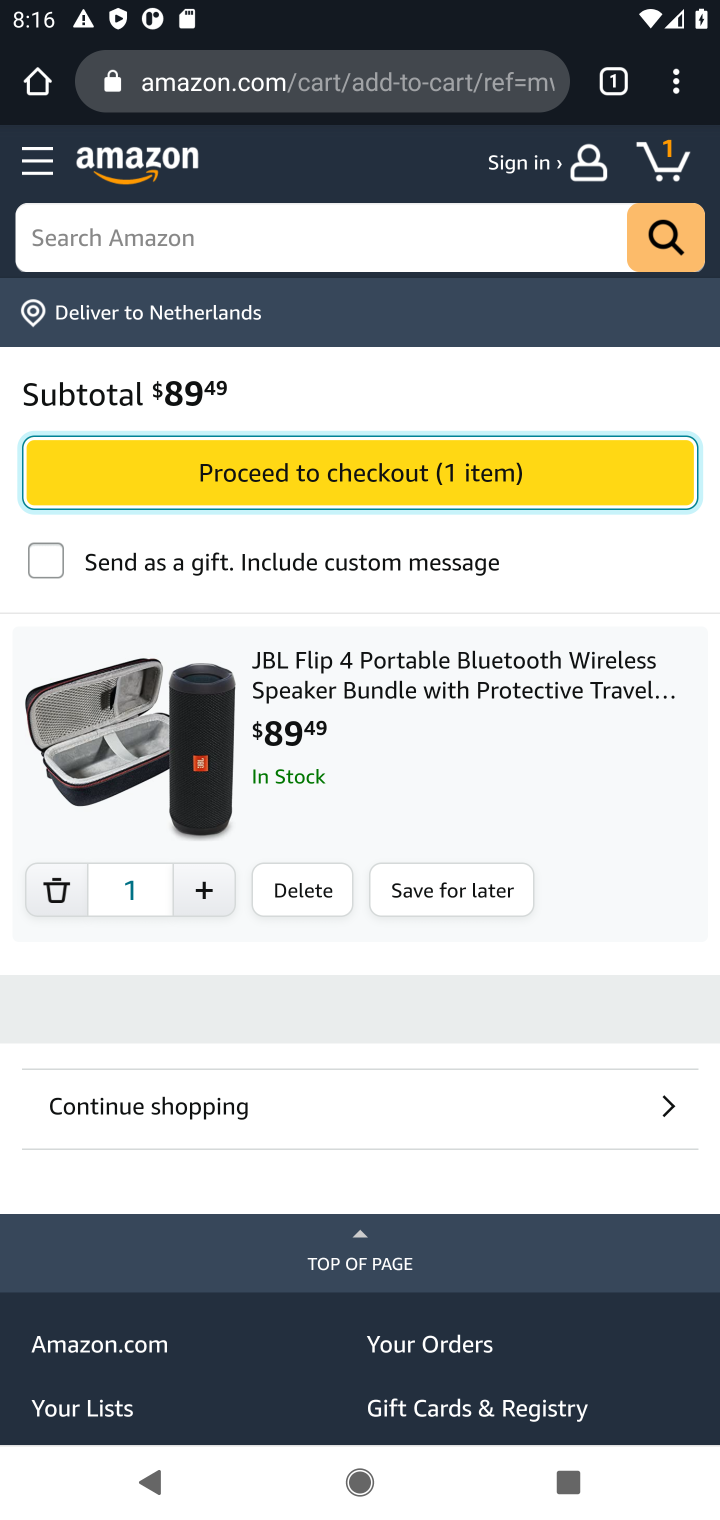
Step 32: click (601, 487)
Your task to perform on an android device: Empty the shopping cart on amazon.com. Add jbl flip 4 to the cart on amazon.com, then select checkout. Image 33: 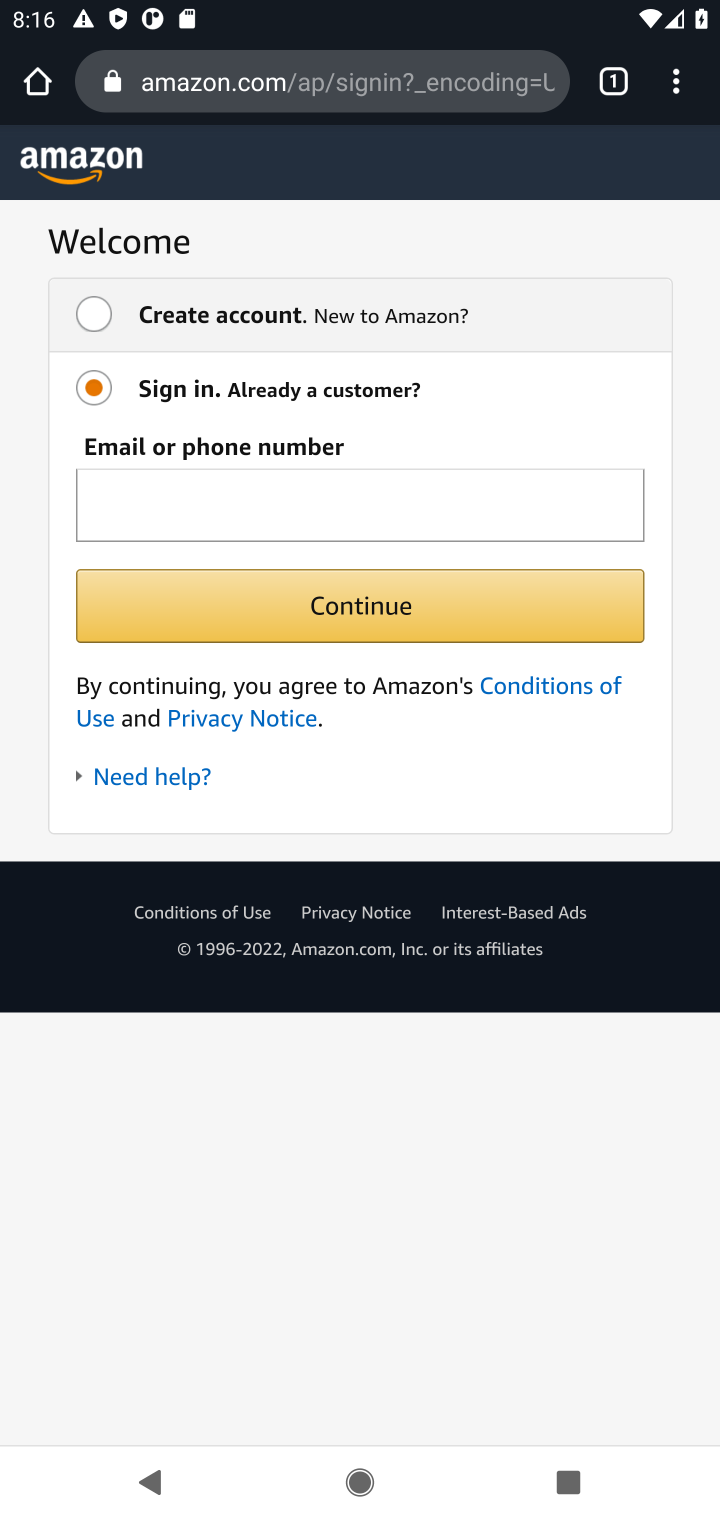
Step 33: task complete